Your task to perform on an android device: Clear all items from cart on walmart.com. Image 0: 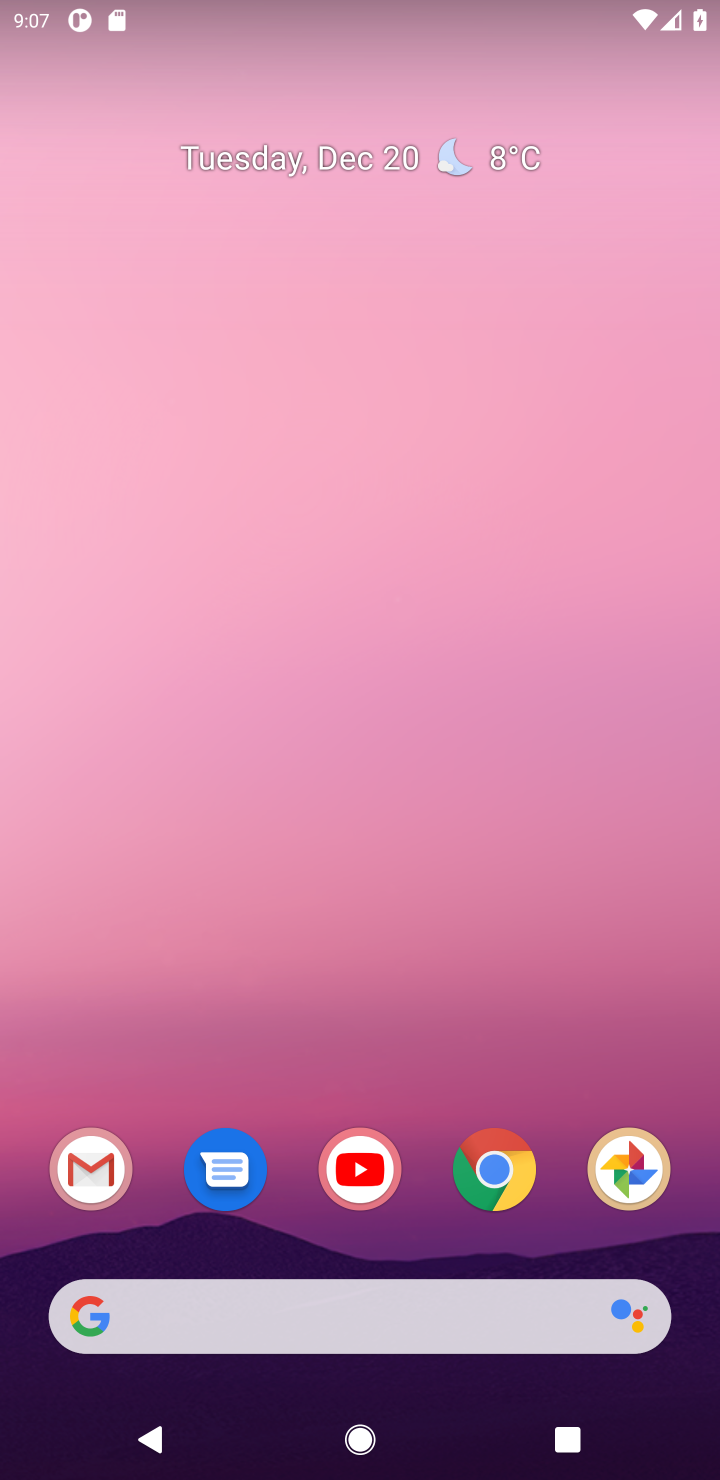
Step 0: click (488, 1139)
Your task to perform on an android device: Clear all items from cart on walmart.com. Image 1: 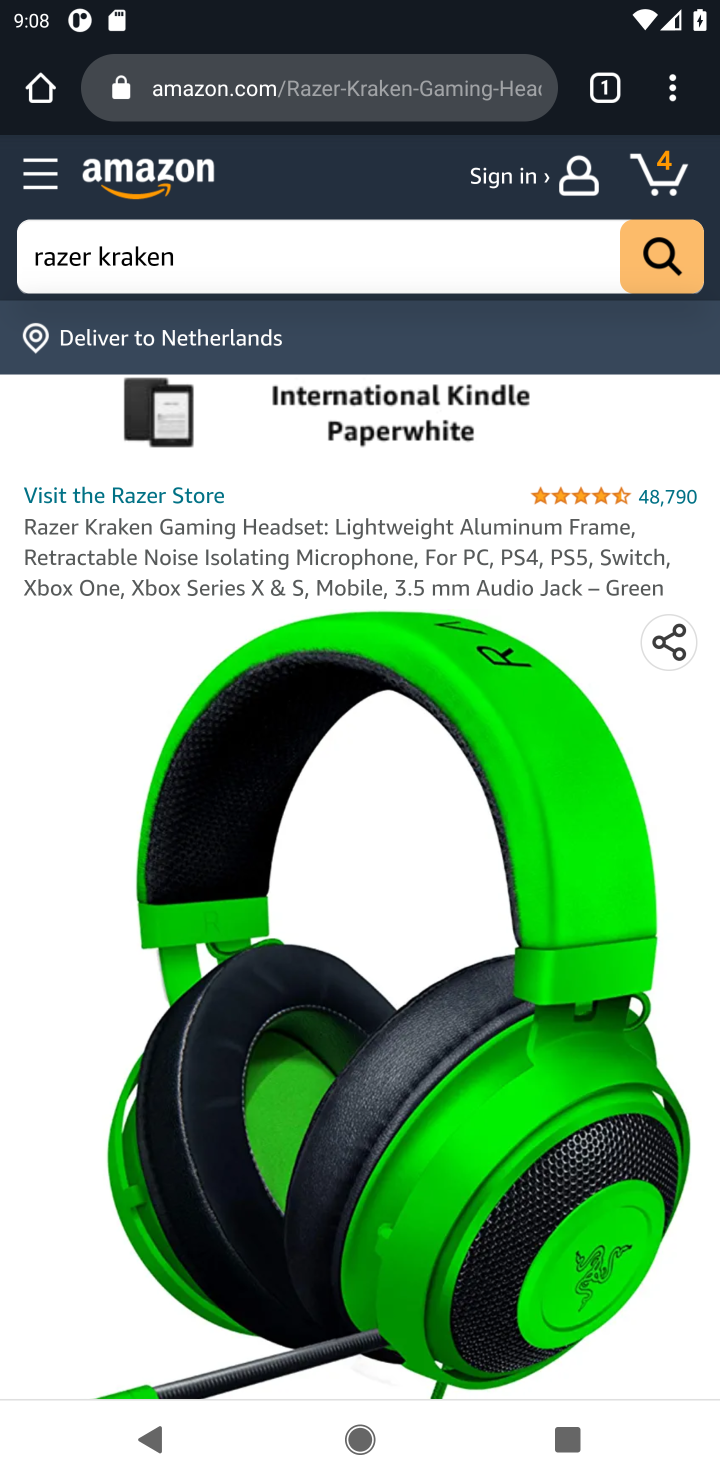
Step 1: click (296, 74)
Your task to perform on an android device: Clear all items from cart on walmart.com. Image 2: 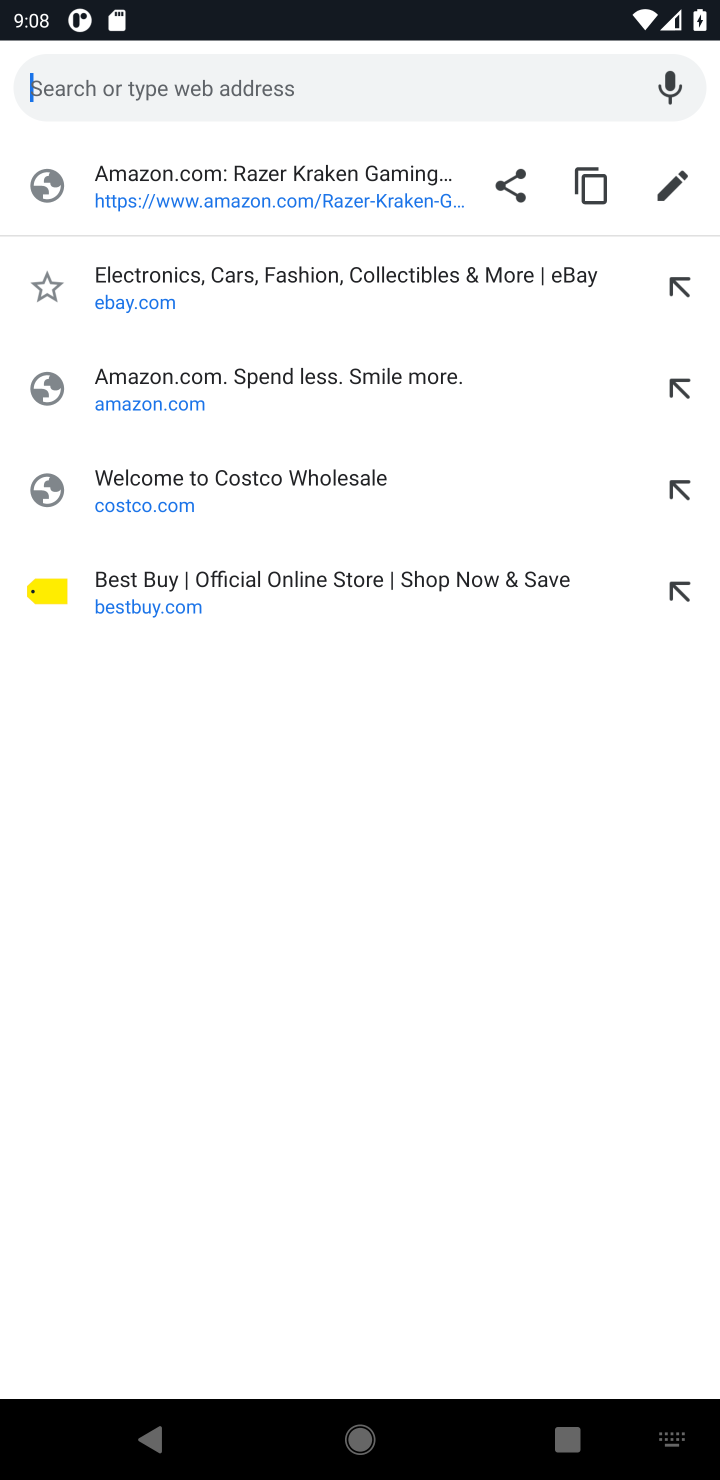
Step 2: type "walmart"
Your task to perform on an android device: Clear all items from cart on walmart.com. Image 3: 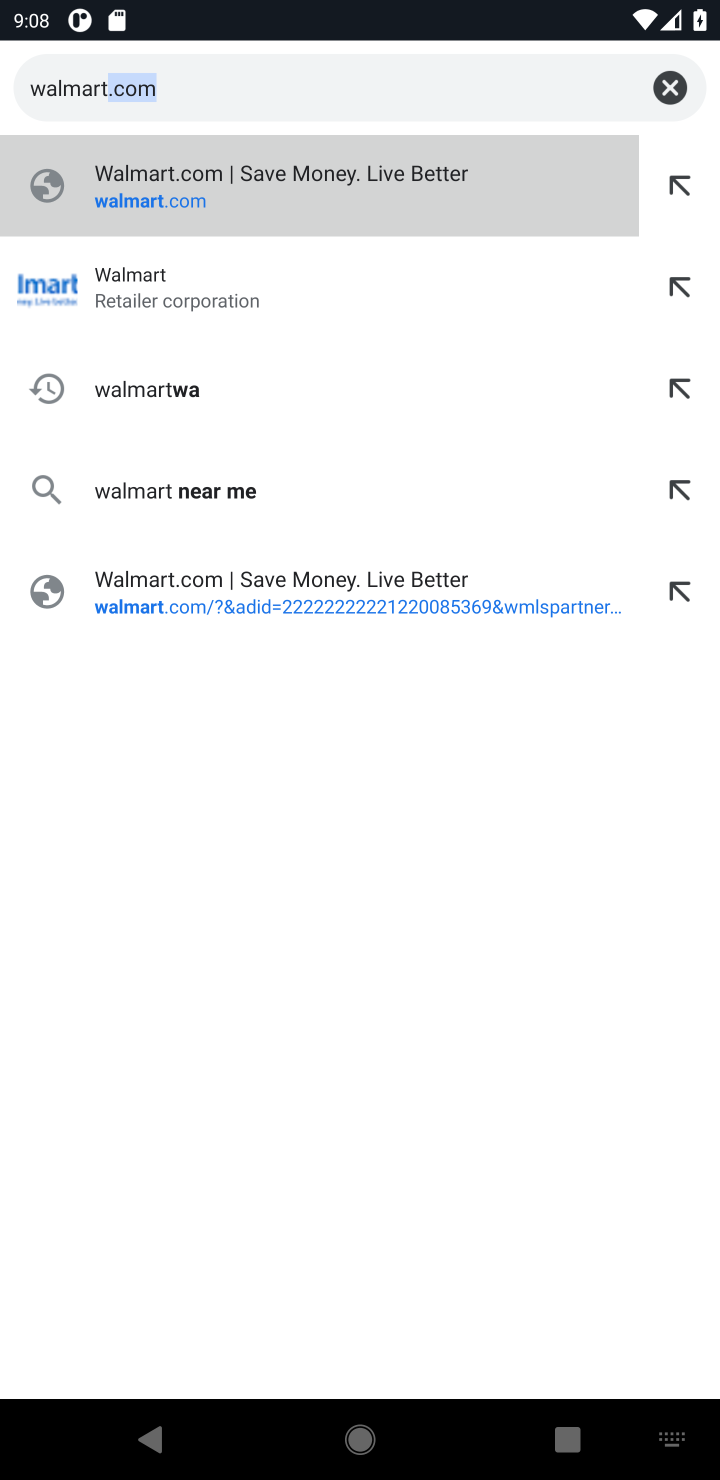
Step 3: click (221, 210)
Your task to perform on an android device: Clear all items from cart on walmart.com. Image 4: 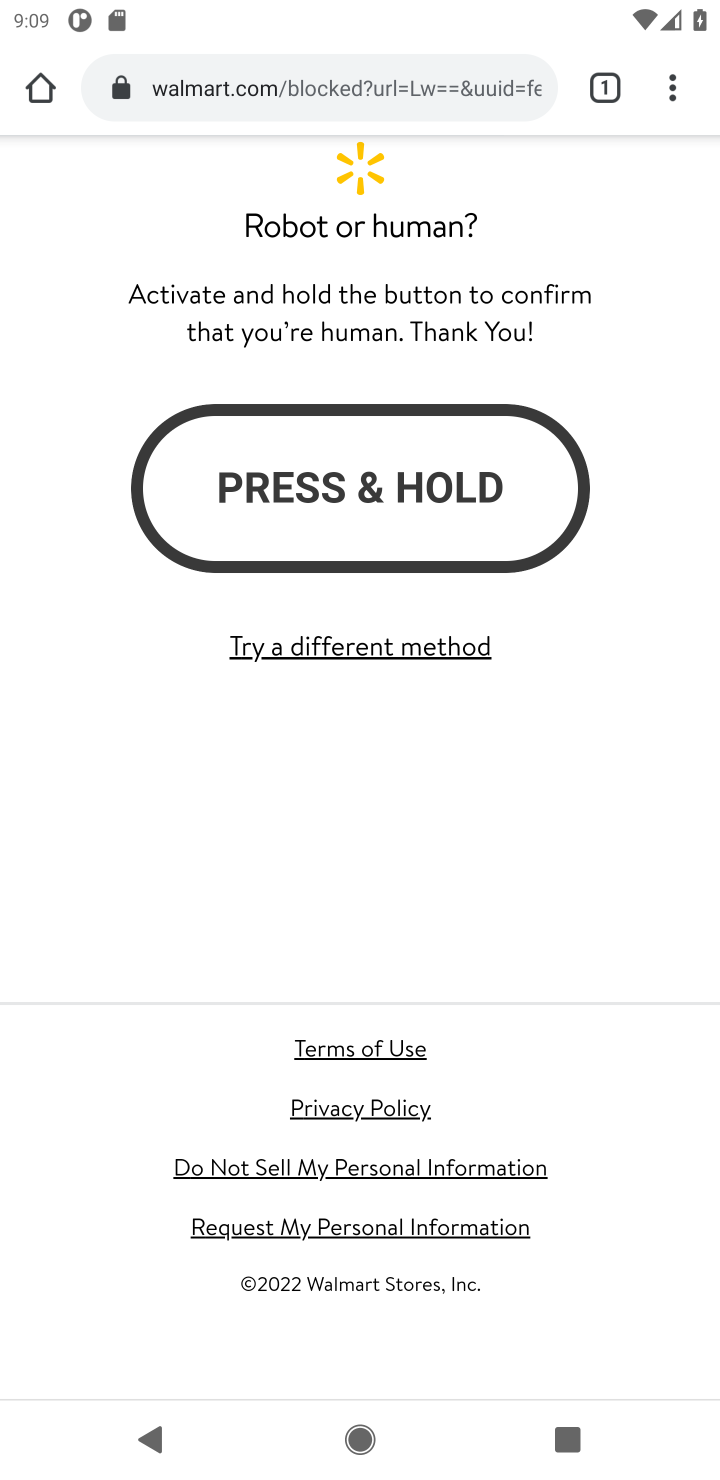
Step 4: click (415, 659)
Your task to perform on an android device: Clear all items from cart on walmart.com. Image 5: 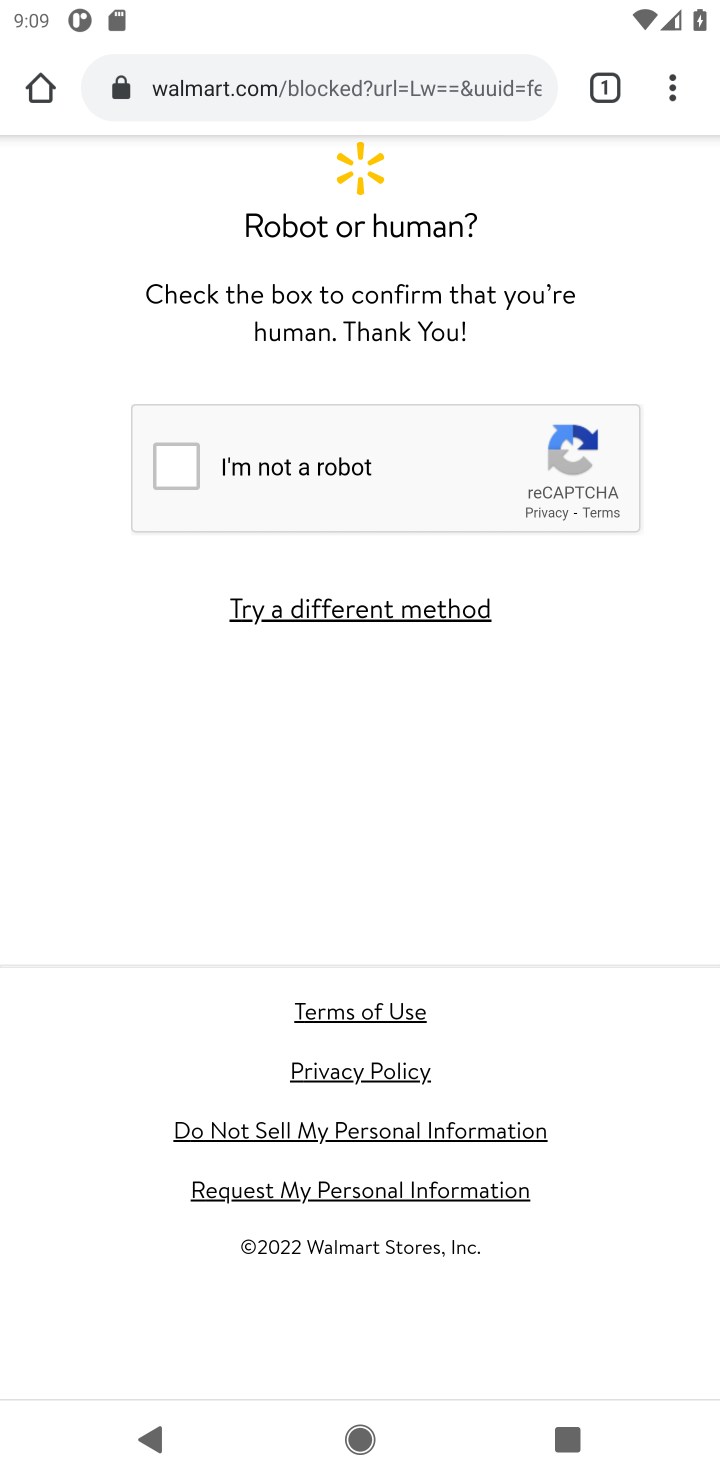
Step 5: click (185, 452)
Your task to perform on an android device: Clear all items from cart on walmart.com. Image 6: 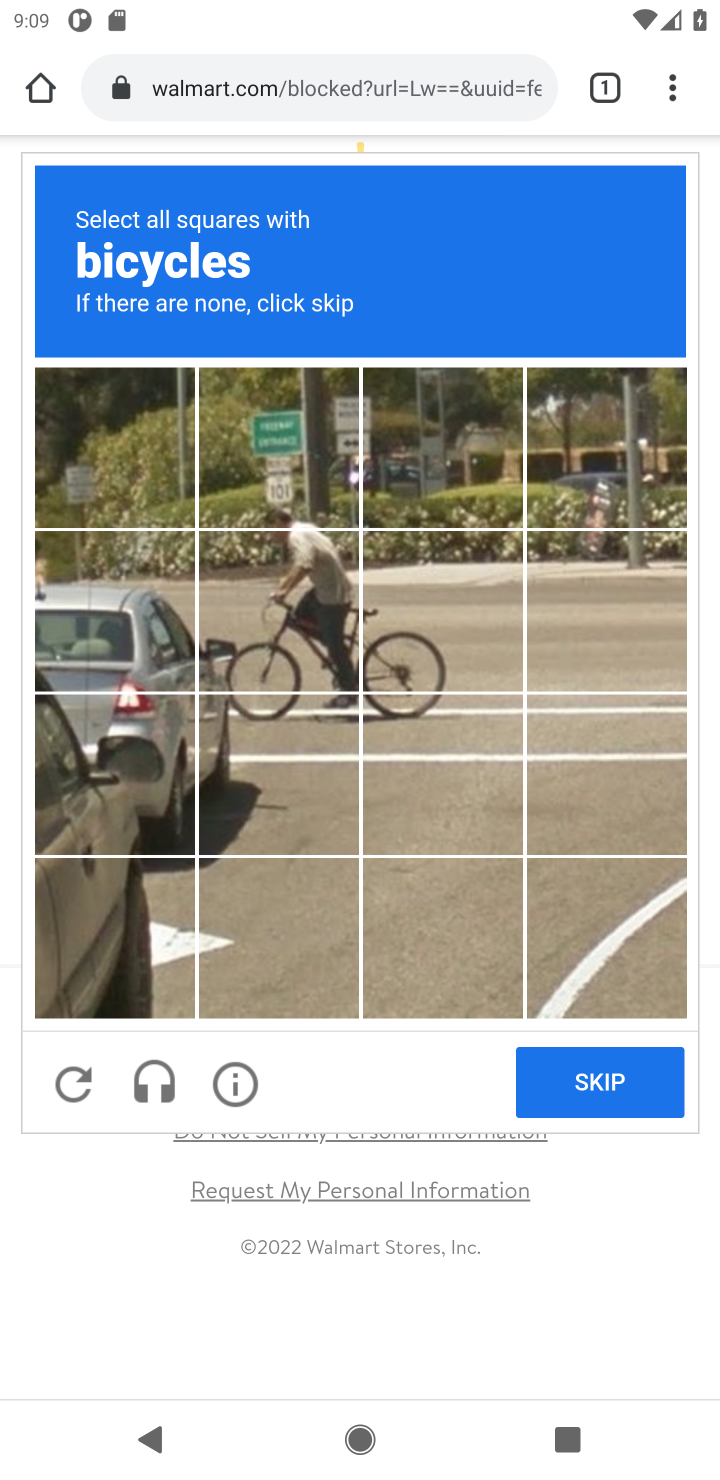
Step 6: click (590, 1076)
Your task to perform on an android device: Clear all items from cart on walmart.com. Image 7: 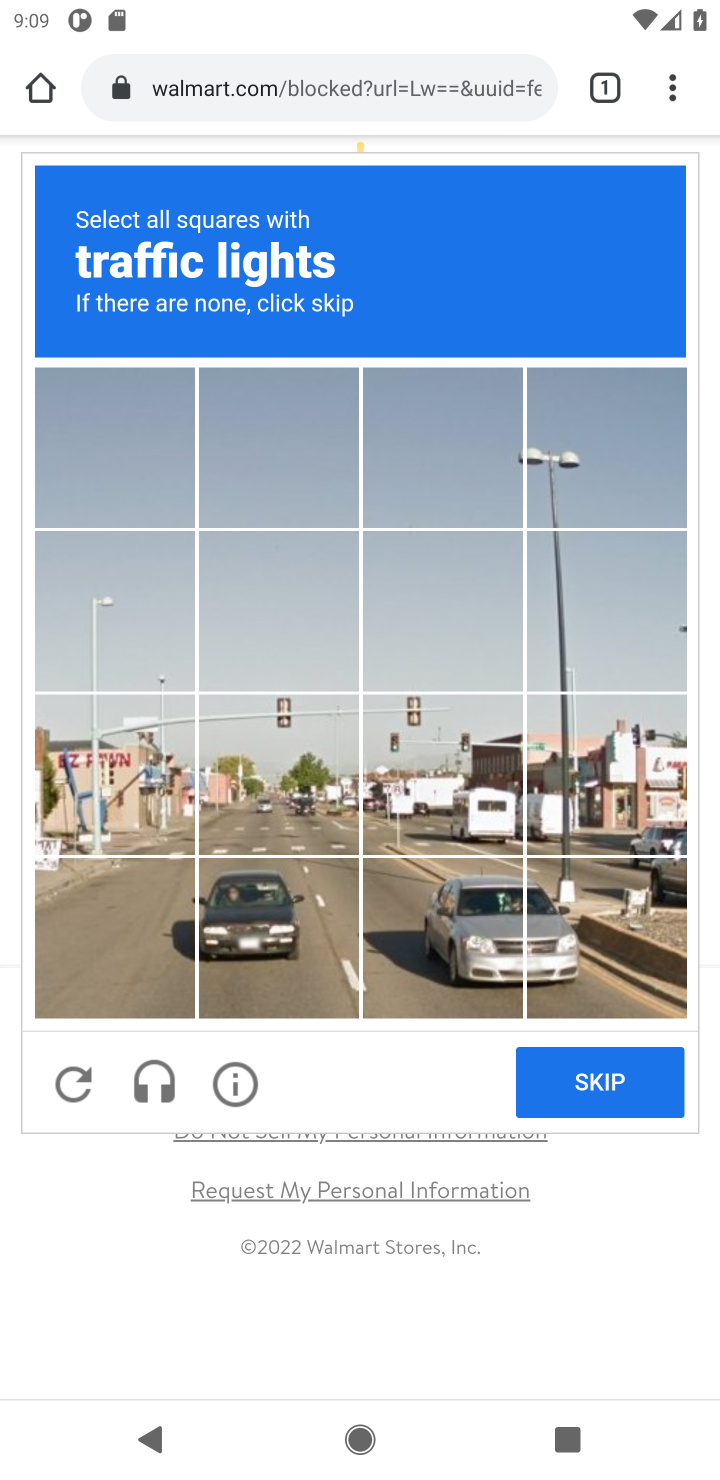
Step 7: click (590, 1076)
Your task to perform on an android device: Clear all items from cart on walmart.com. Image 8: 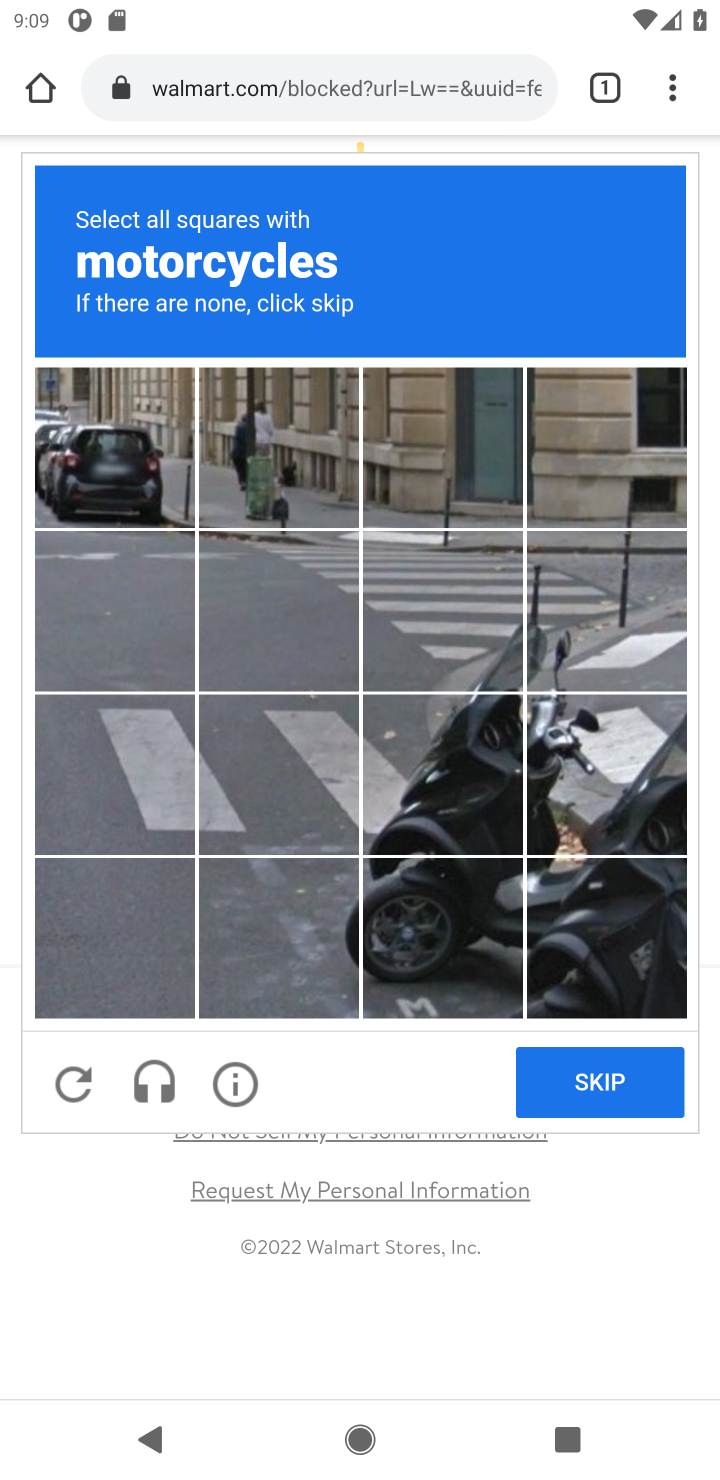
Step 8: click (590, 1076)
Your task to perform on an android device: Clear all items from cart on walmart.com. Image 9: 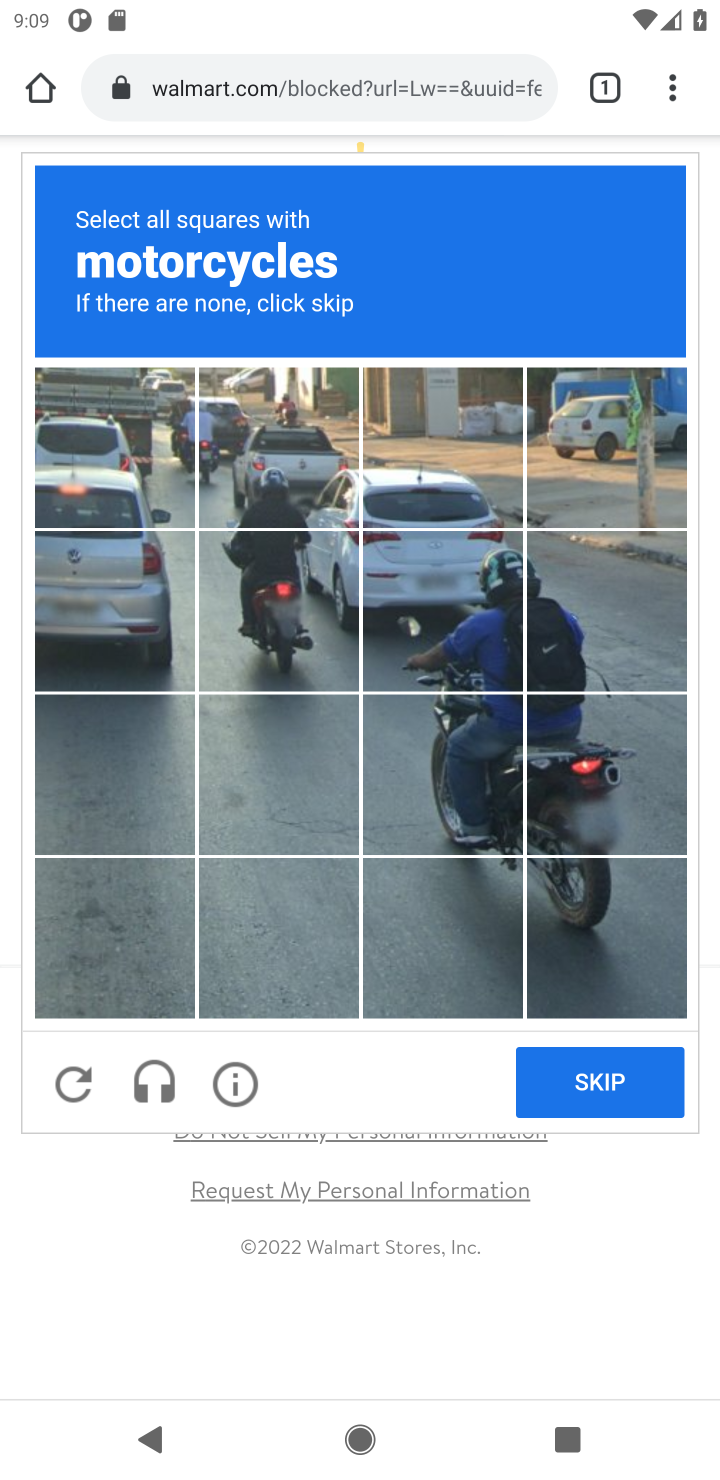
Step 9: click (590, 1076)
Your task to perform on an android device: Clear all items from cart on walmart.com. Image 10: 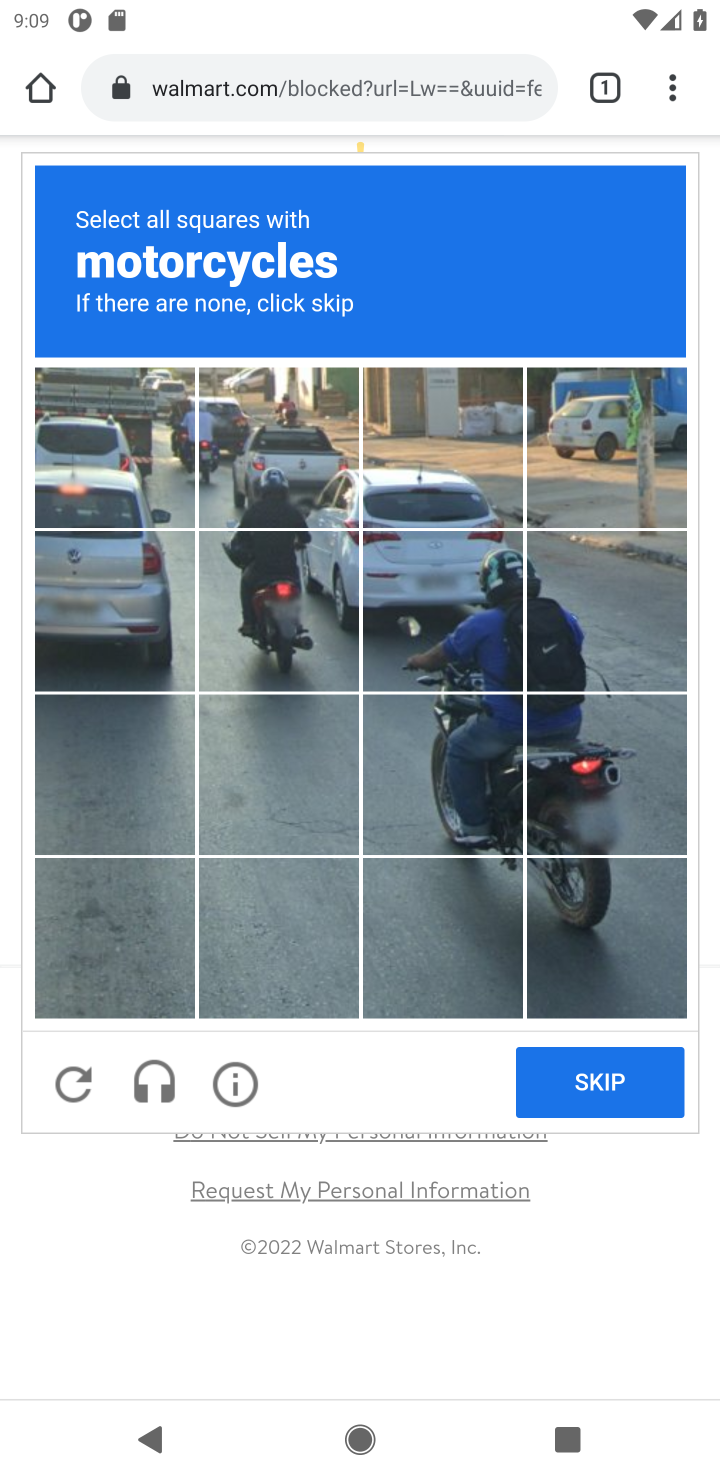
Step 10: click (590, 1076)
Your task to perform on an android device: Clear all items from cart on walmart.com. Image 11: 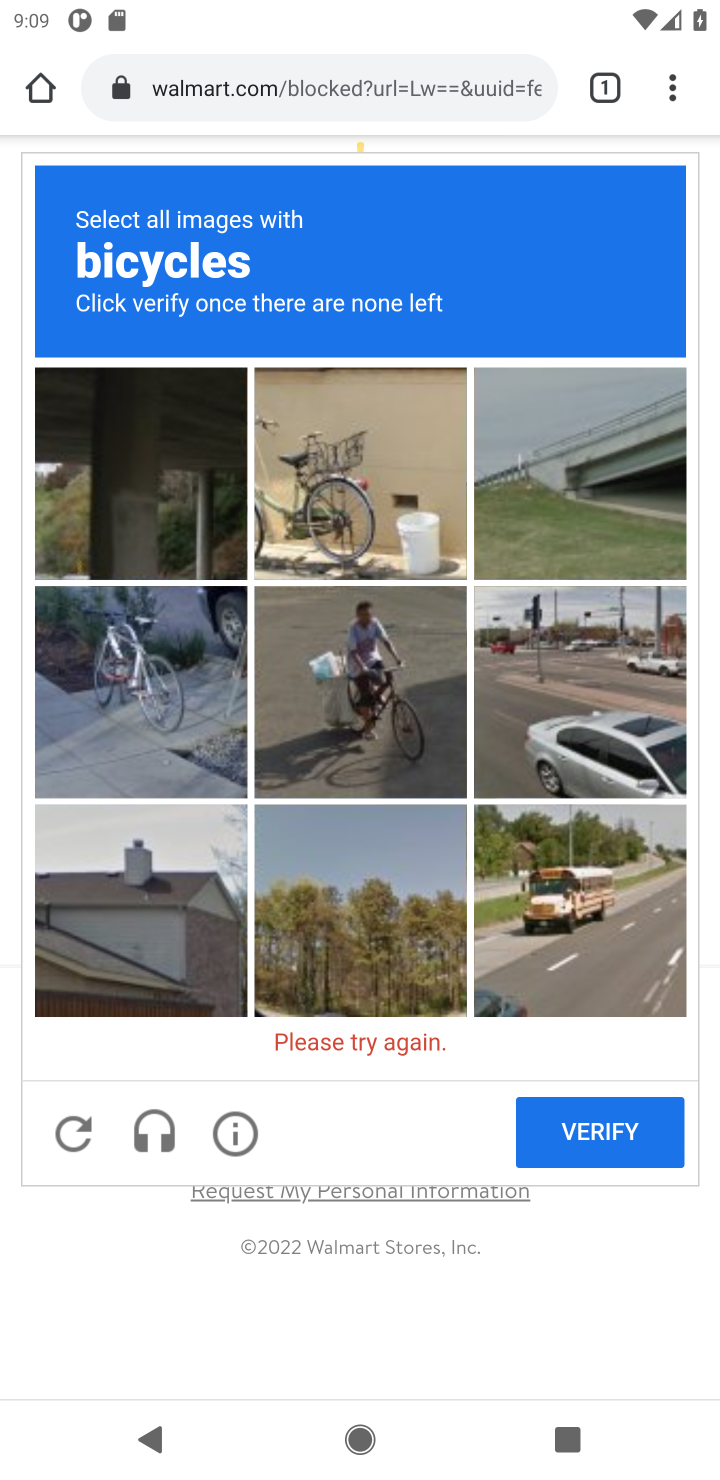
Step 11: click (590, 1076)
Your task to perform on an android device: Clear all items from cart on walmart.com. Image 12: 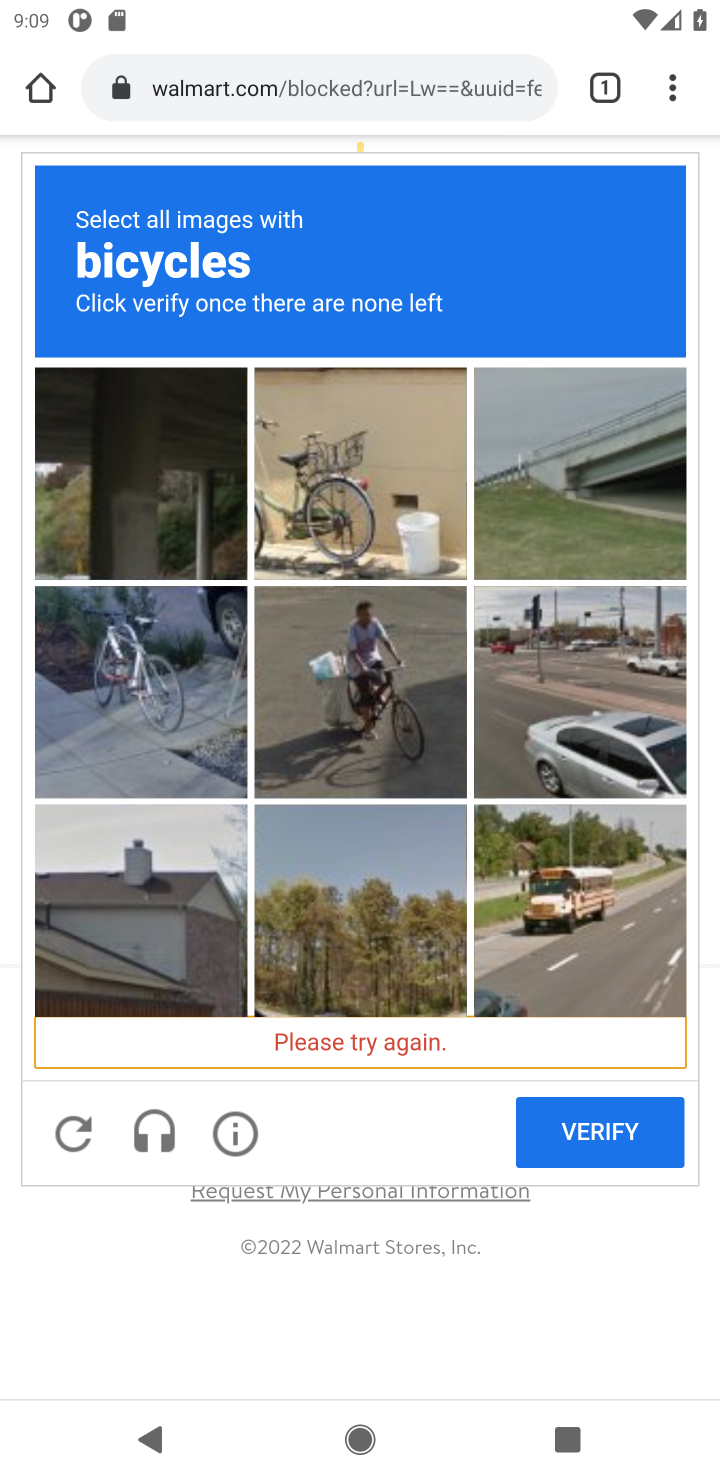
Step 12: click (333, 664)
Your task to perform on an android device: Clear all items from cart on walmart.com. Image 13: 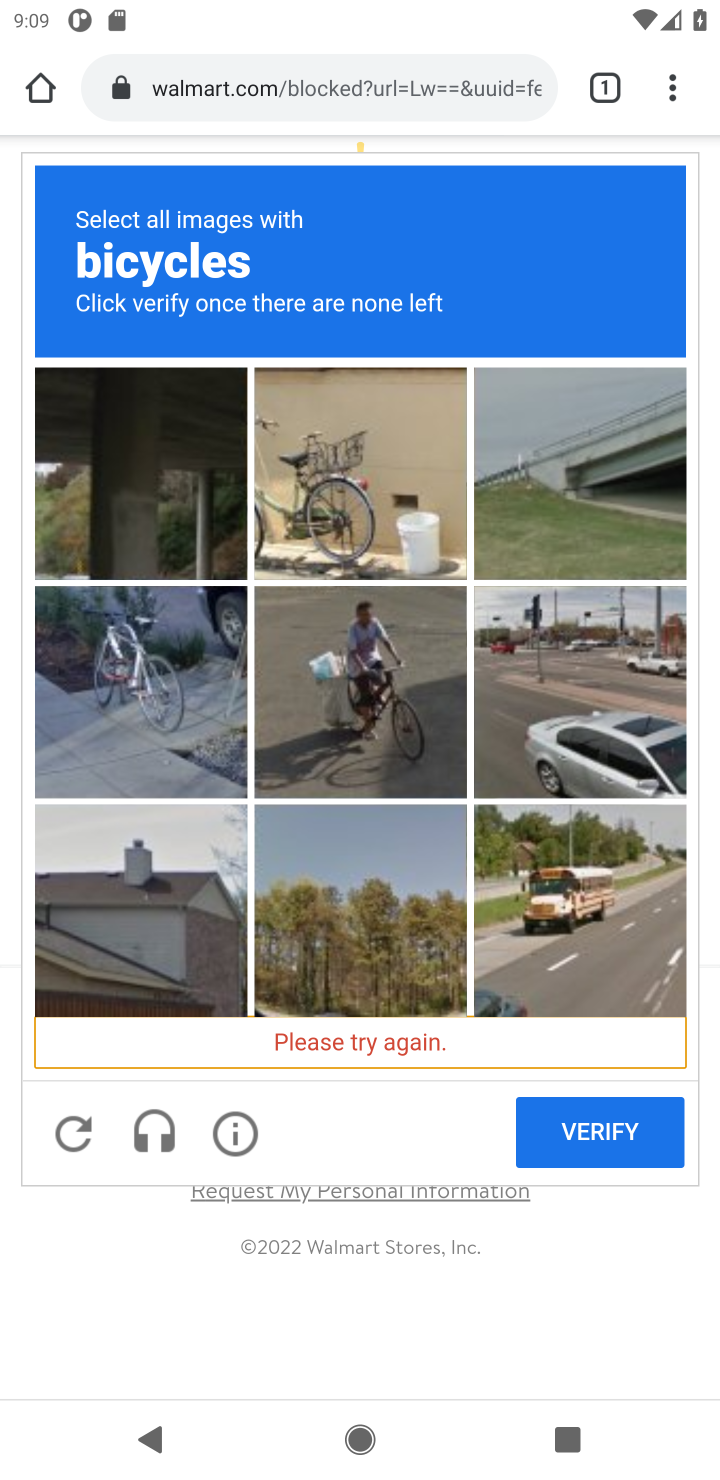
Step 13: click (167, 678)
Your task to perform on an android device: Clear all items from cart on walmart.com. Image 14: 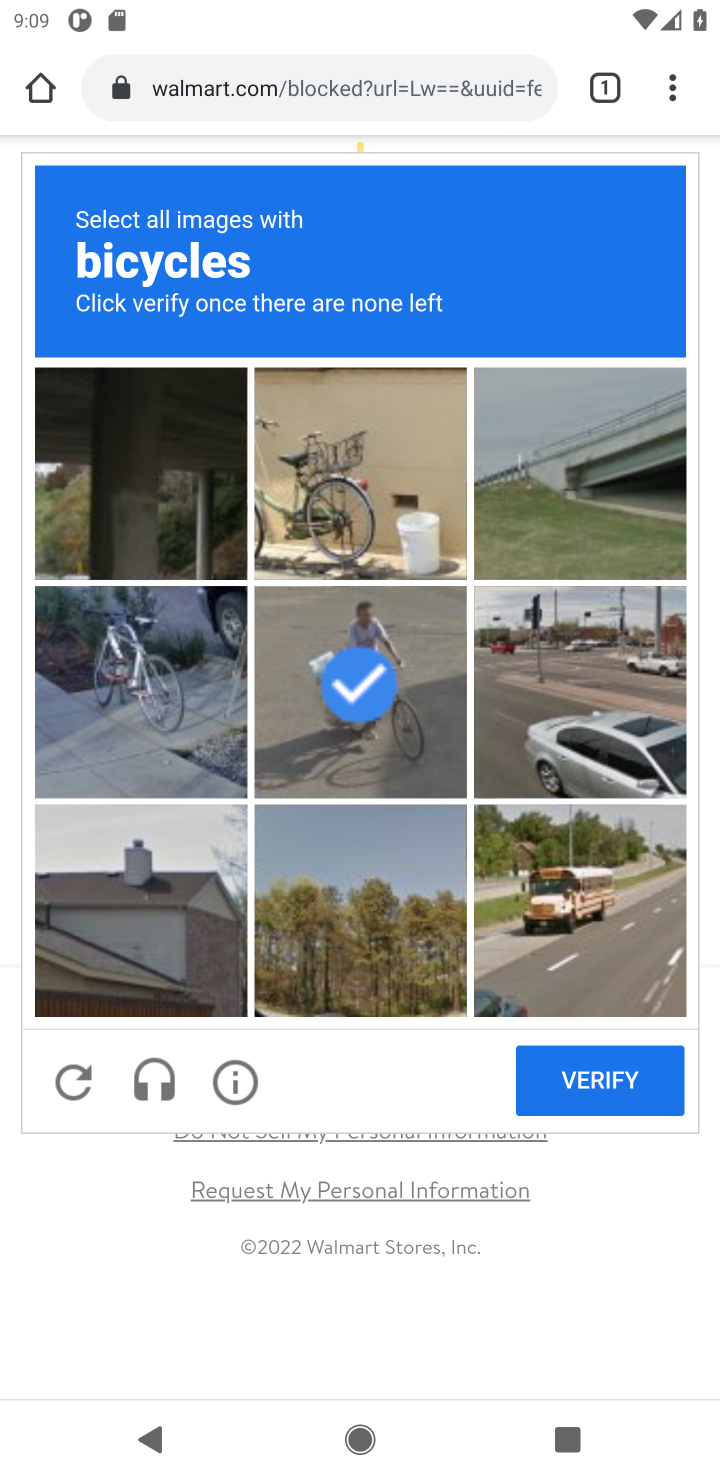
Step 14: click (371, 519)
Your task to perform on an android device: Clear all items from cart on walmart.com. Image 15: 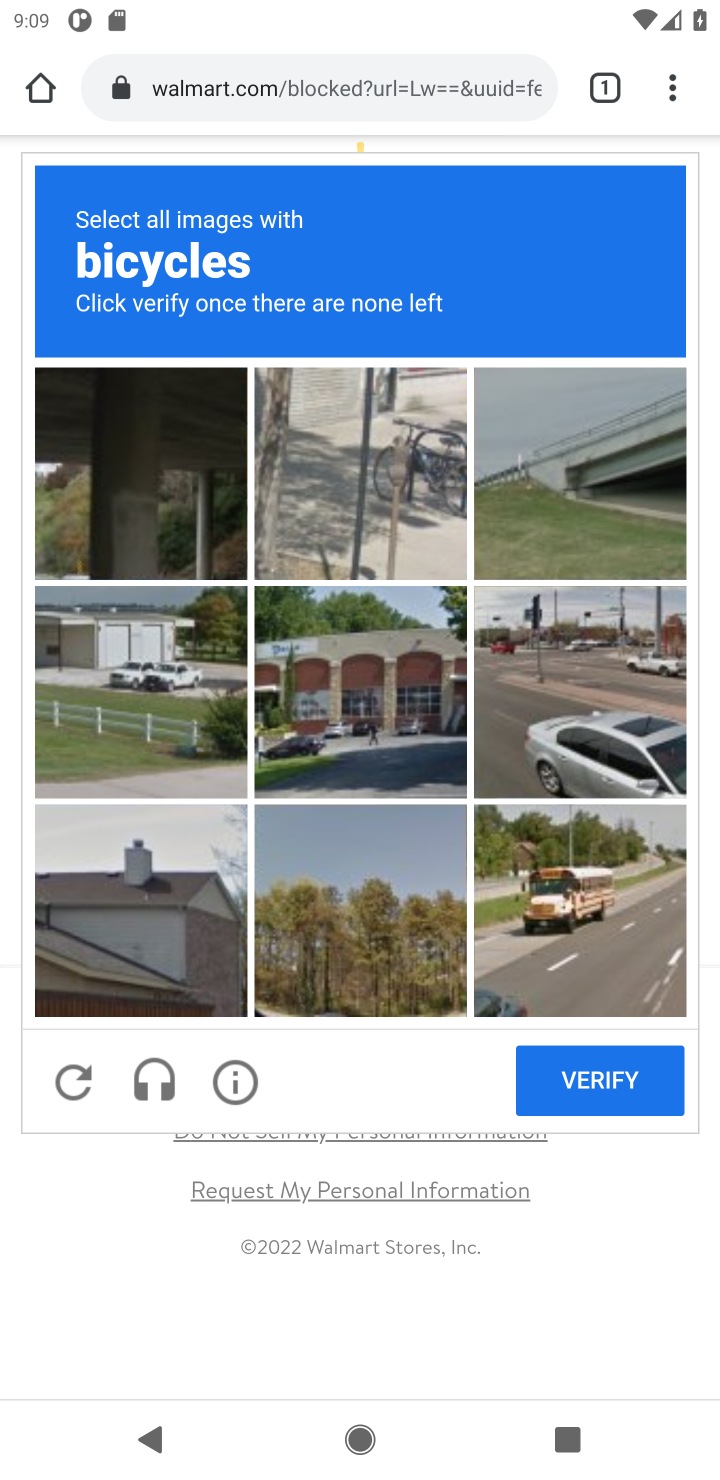
Step 15: click (415, 548)
Your task to perform on an android device: Clear all items from cart on walmart.com. Image 16: 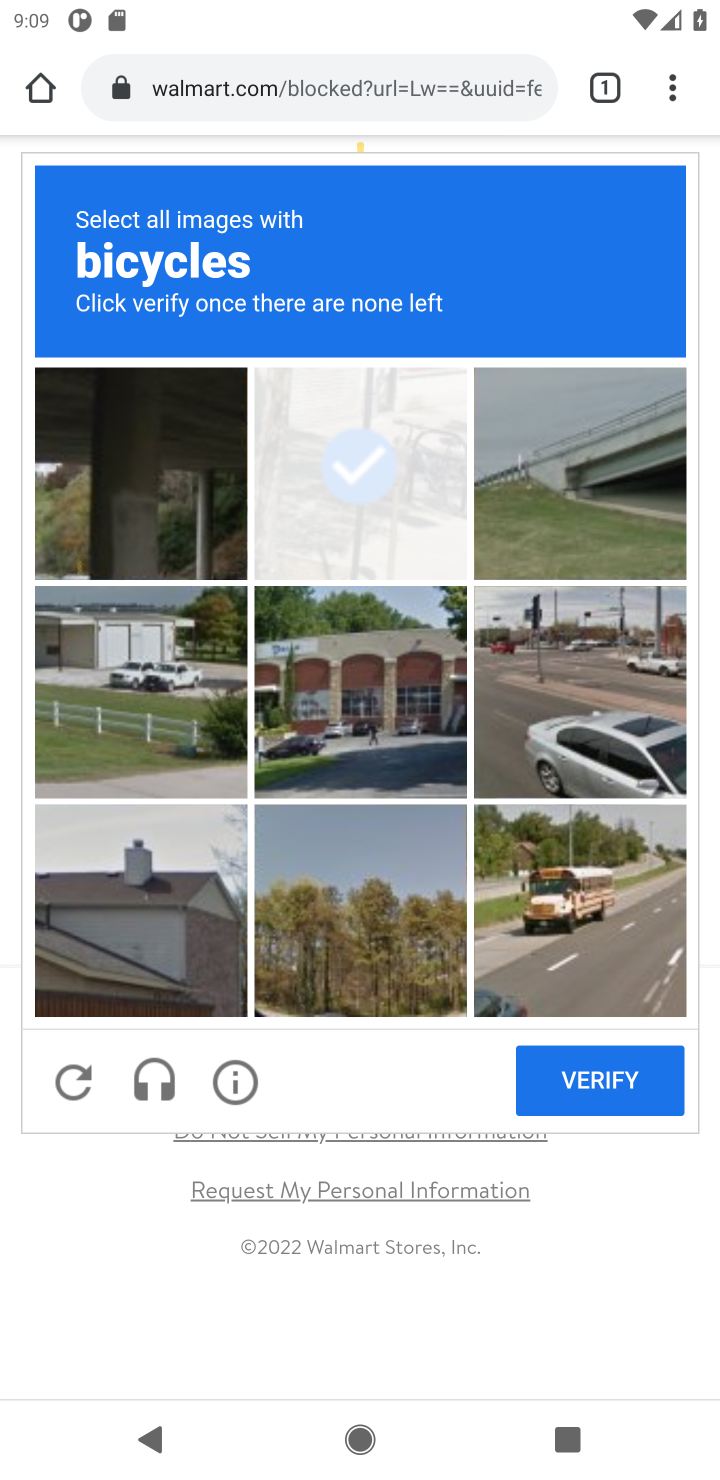
Step 16: click (616, 1102)
Your task to perform on an android device: Clear all items from cart on walmart.com. Image 17: 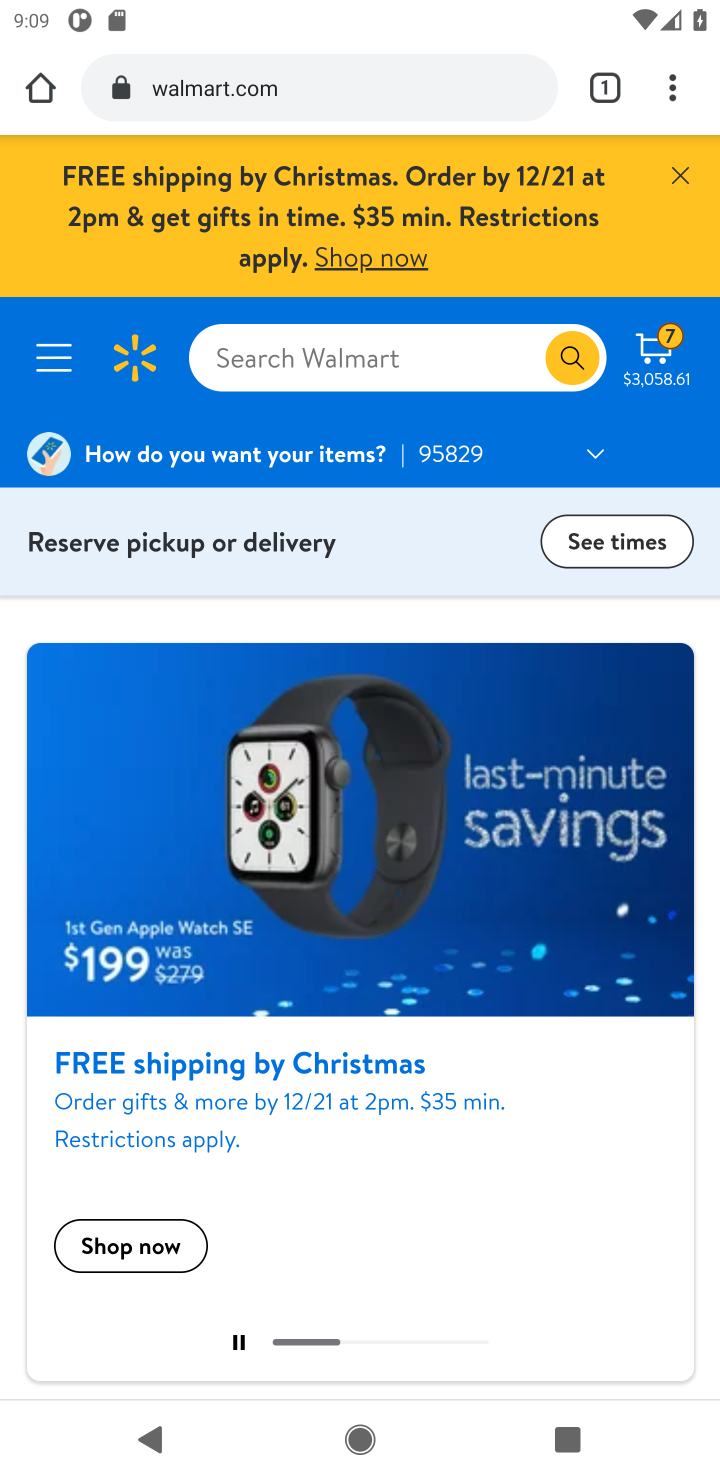
Step 17: click (297, 350)
Your task to perform on an android device: Clear all items from cart on walmart.com. Image 18: 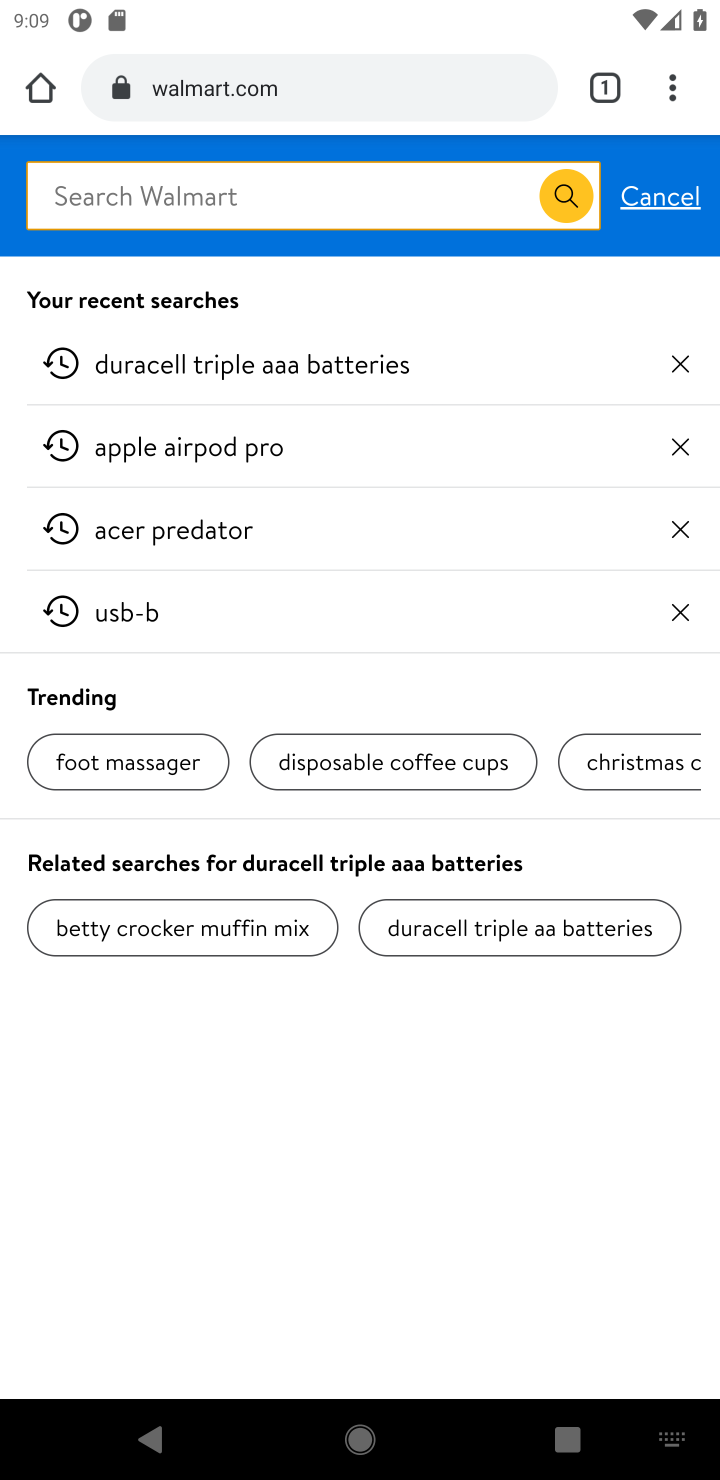
Step 18: click (645, 196)
Your task to perform on an android device: Clear all items from cart on walmart.com. Image 19: 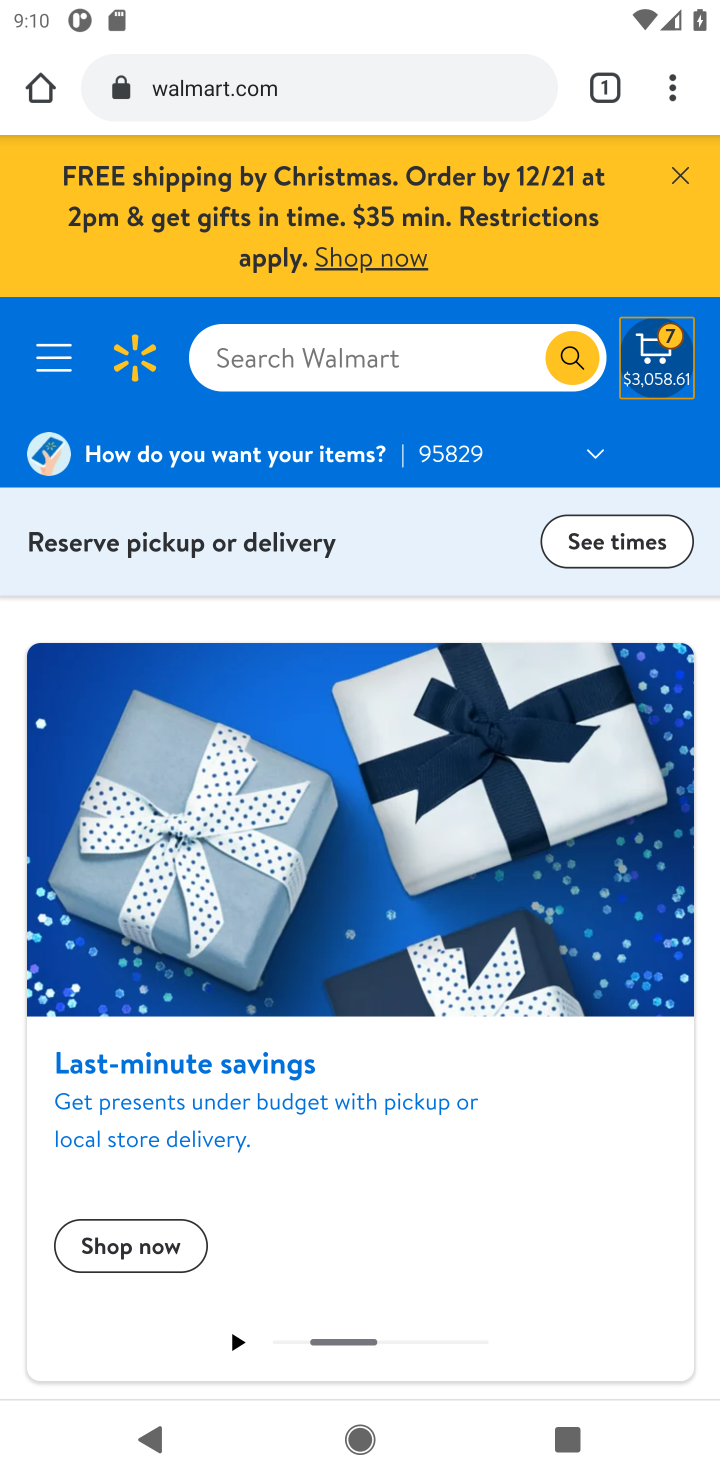
Step 19: click (656, 343)
Your task to perform on an android device: Clear all items from cart on walmart.com. Image 20: 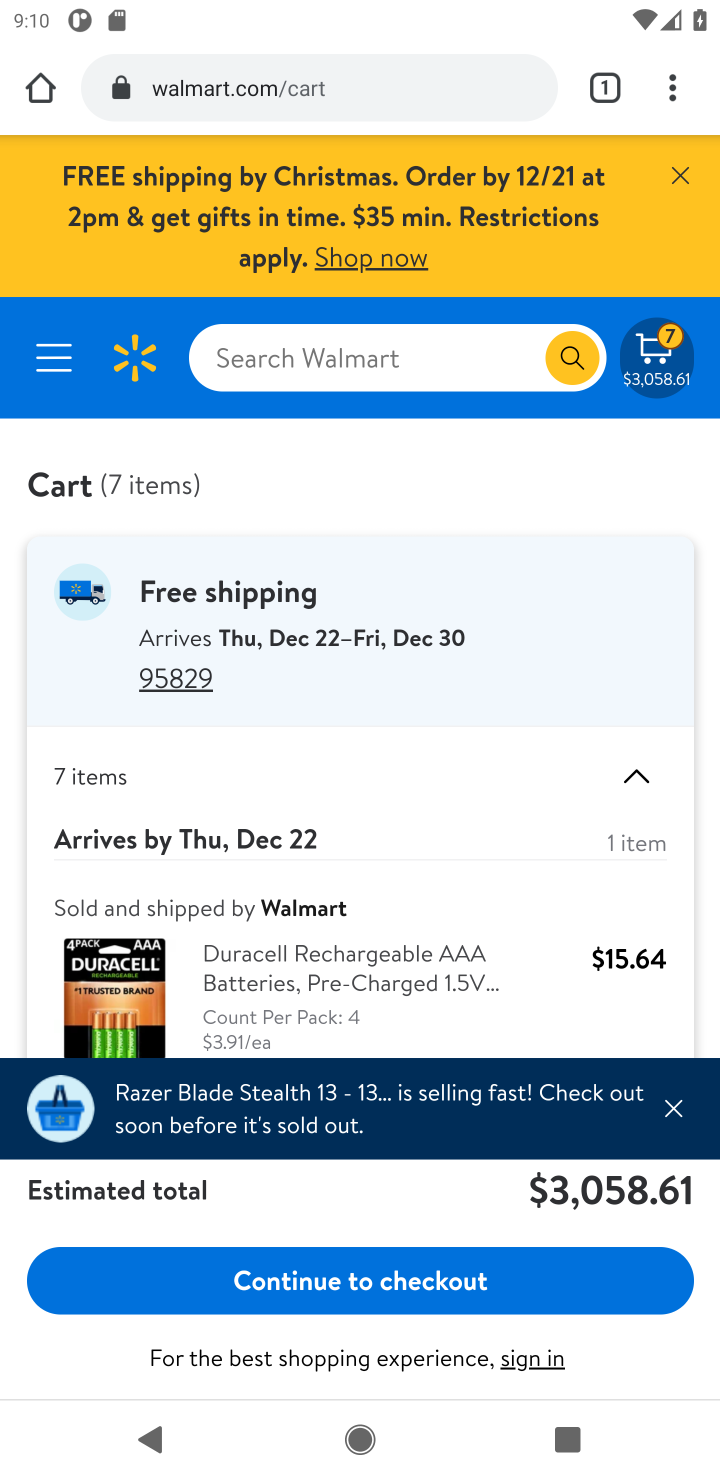
Step 20: click (678, 1106)
Your task to perform on an android device: Clear all items from cart on walmart.com. Image 21: 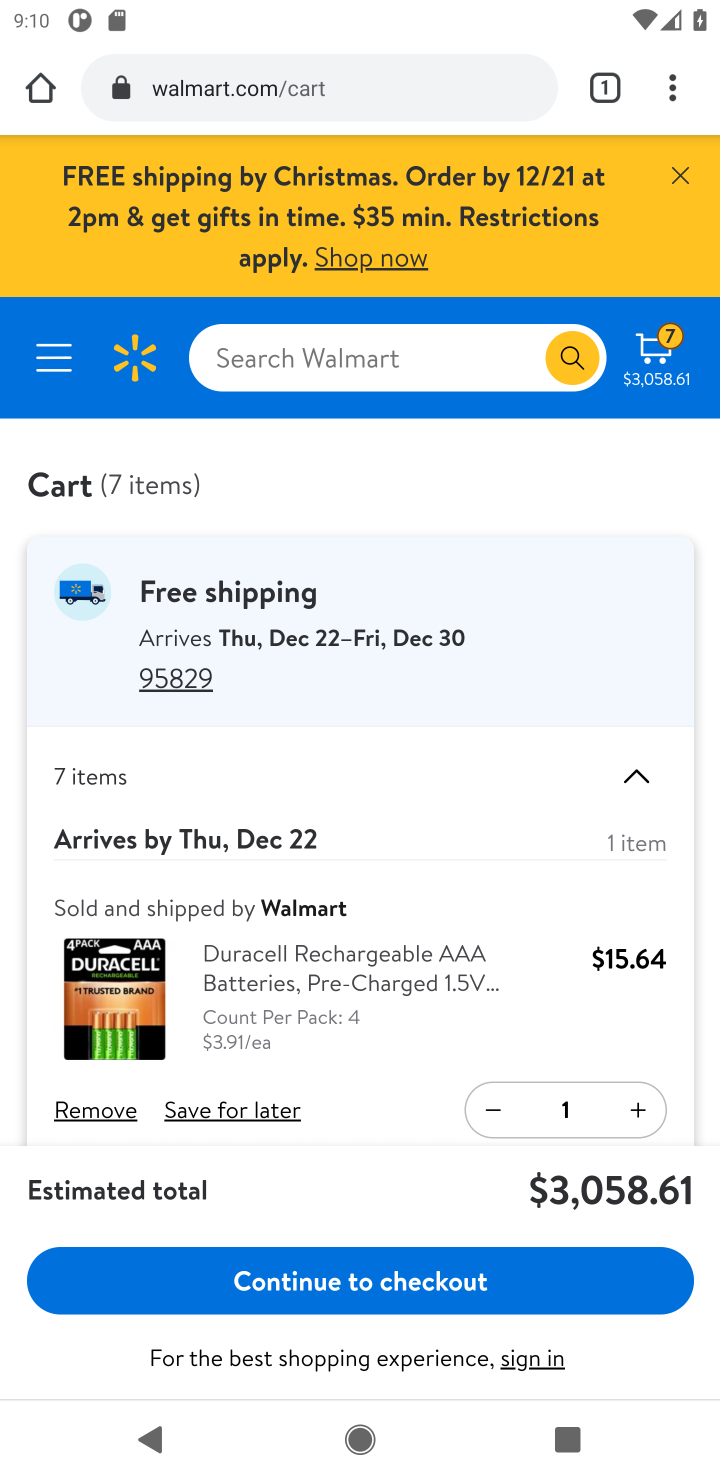
Step 21: click (85, 1111)
Your task to perform on an android device: Clear all items from cart on walmart.com. Image 22: 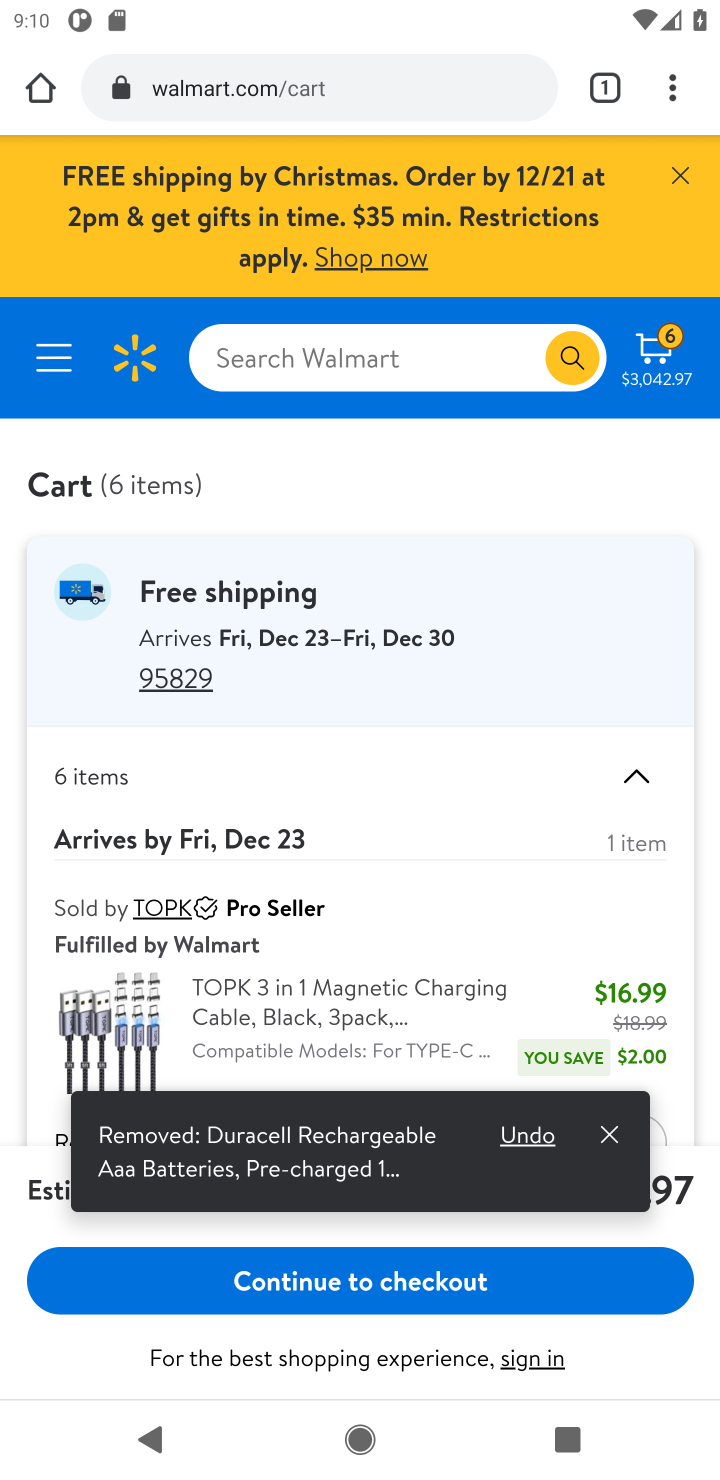
Step 22: click (607, 1142)
Your task to perform on an android device: Clear all items from cart on walmart.com. Image 23: 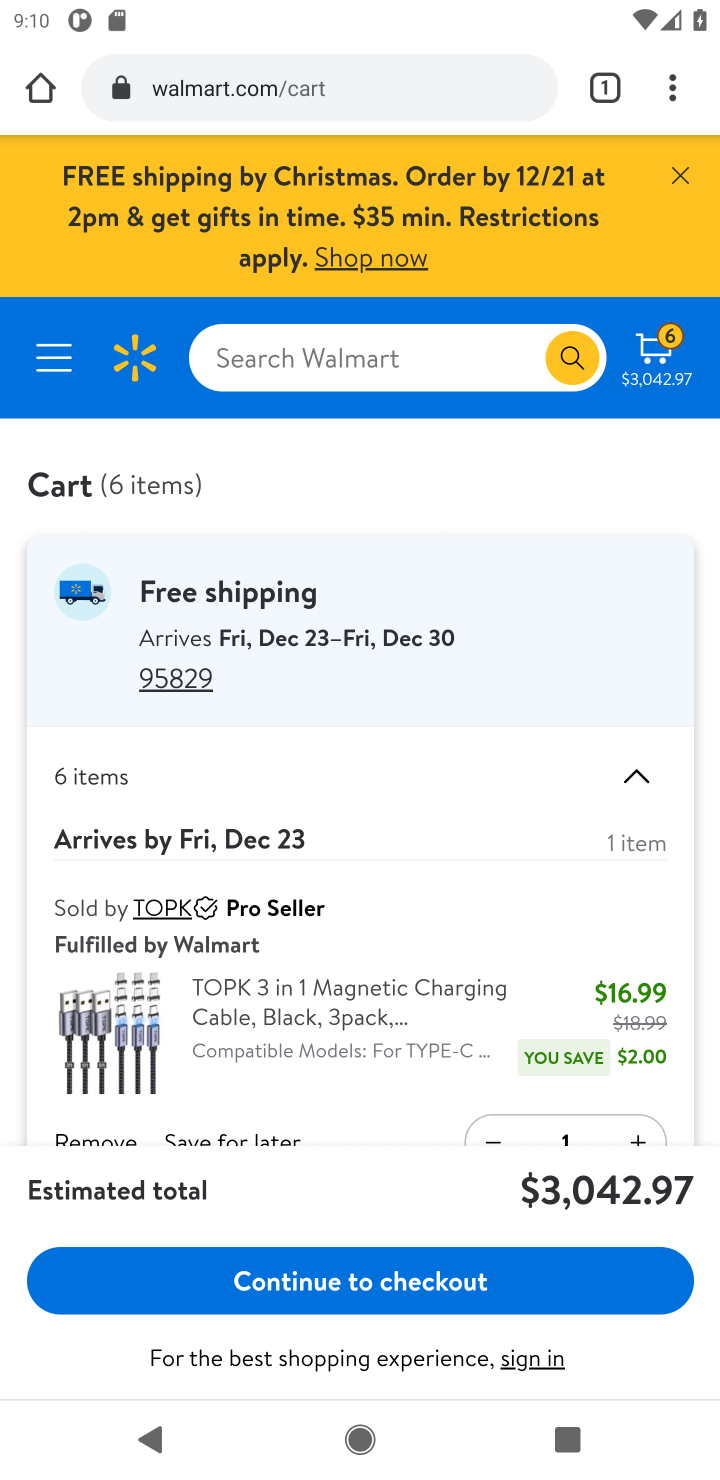
Step 23: click (108, 1136)
Your task to perform on an android device: Clear all items from cart on walmart.com. Image 24: 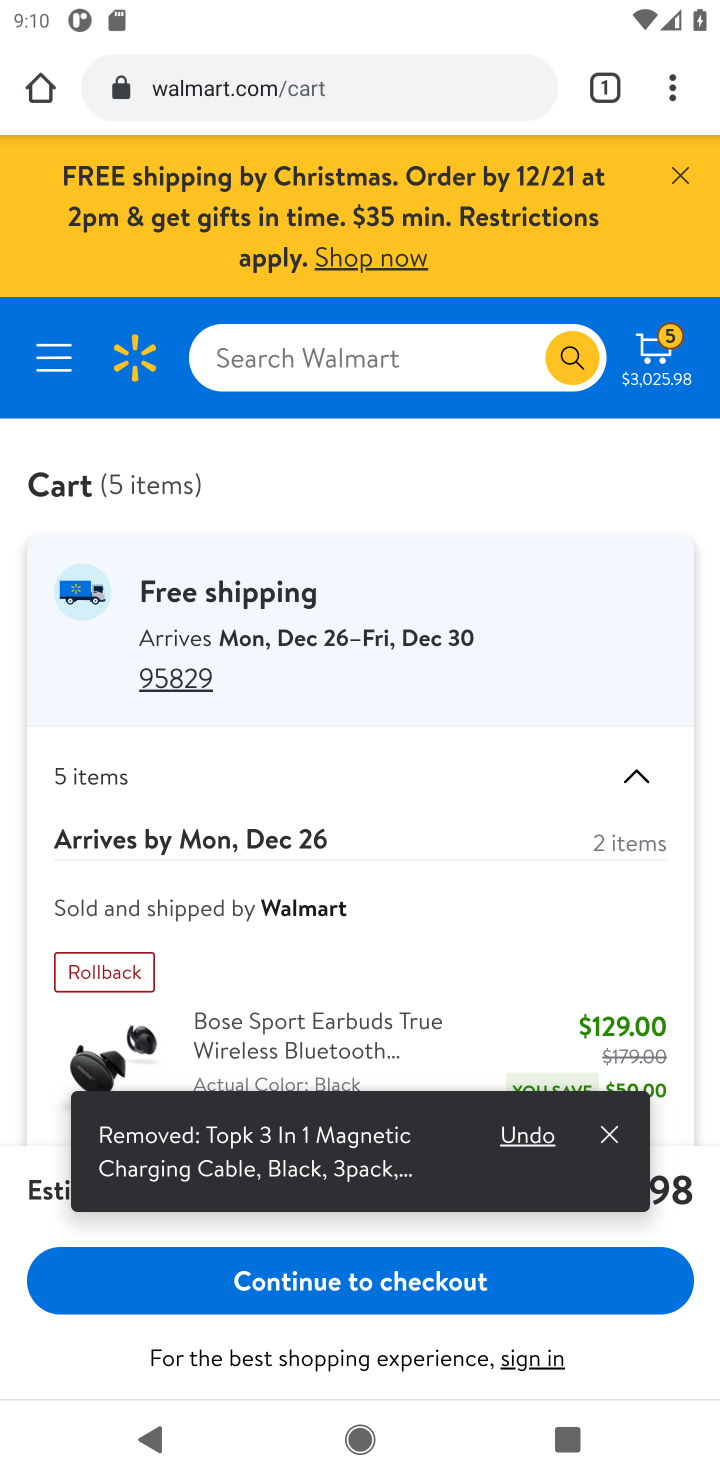
Step 24: click (617, 1123)
Your task to perform on an android device: Clear all items from cart on walmart.com. Image 25: 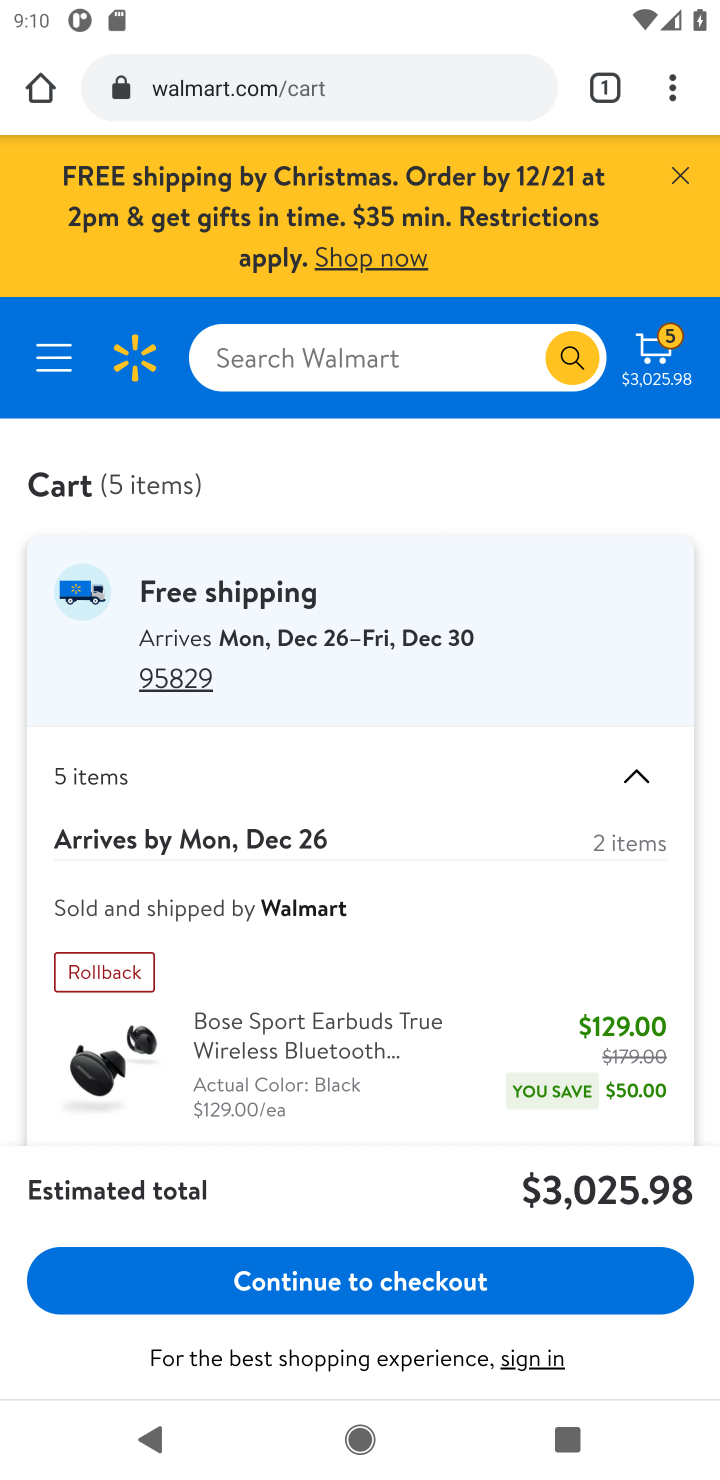
Step 25: drag from (458, 1105) to (471, 710)
Your task to perform on an android device: Clear all items from cart on walmart.com. Image 26: 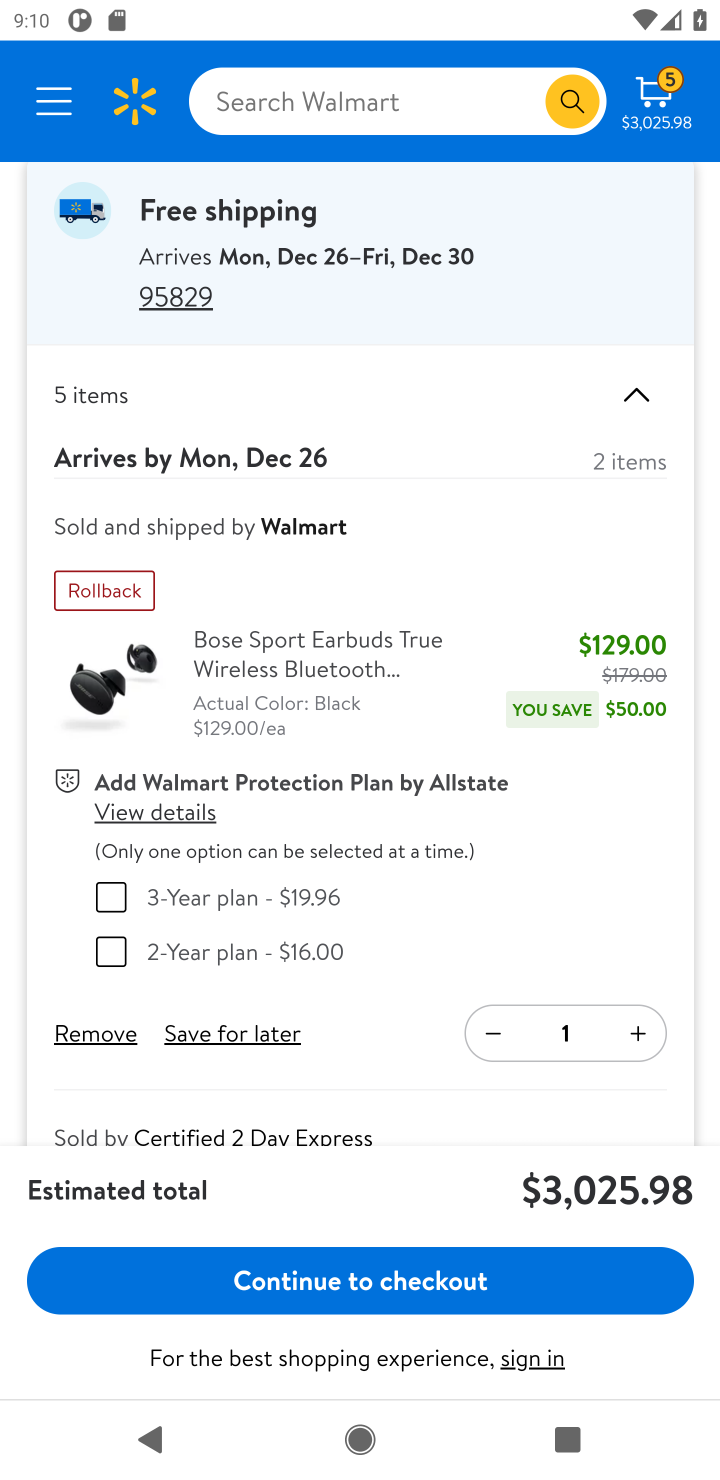
Step 26: click (123, 1036)
Your task to perform on an android device: Clear all items from cart on walmart.com. Image 27: 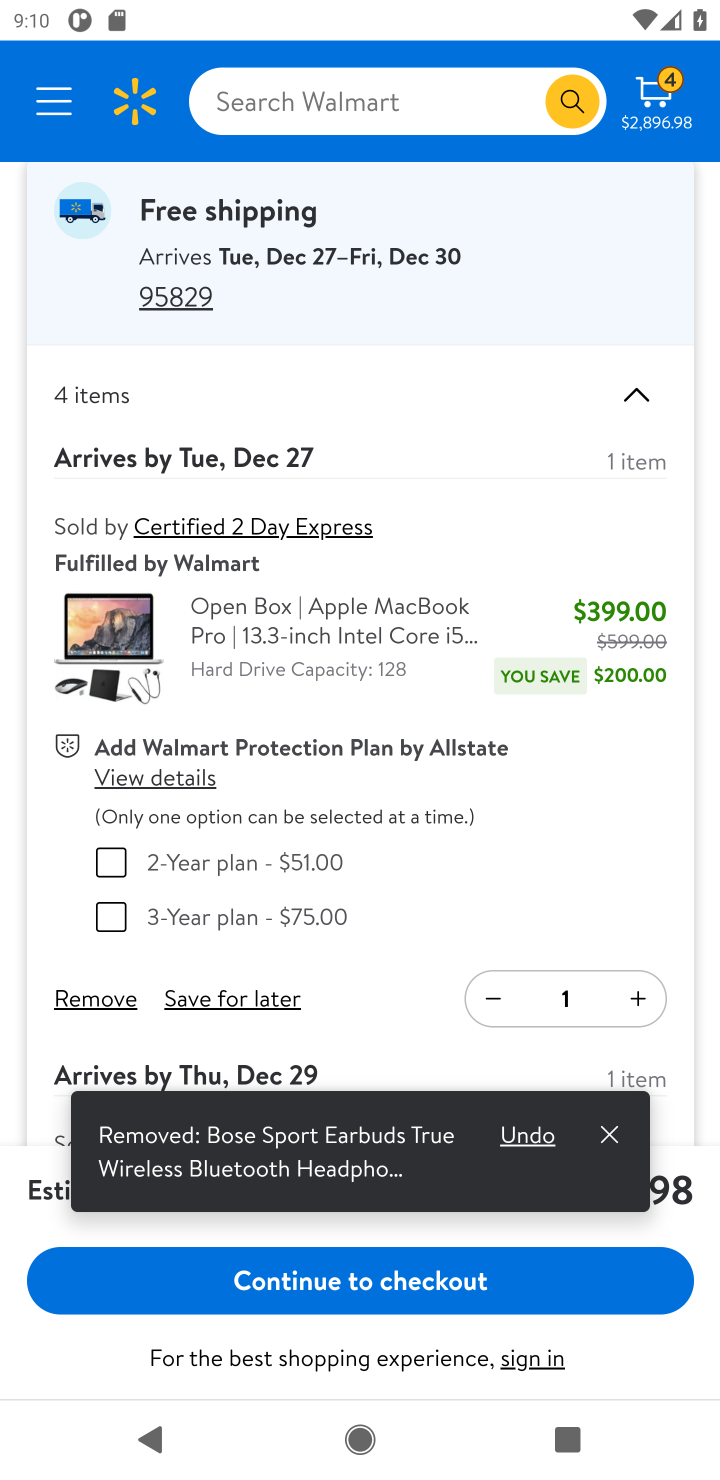
Step 27: click (89, 1018)
Your task to perform on an android device: Clear all items from cart on walmart.com. Image 28: 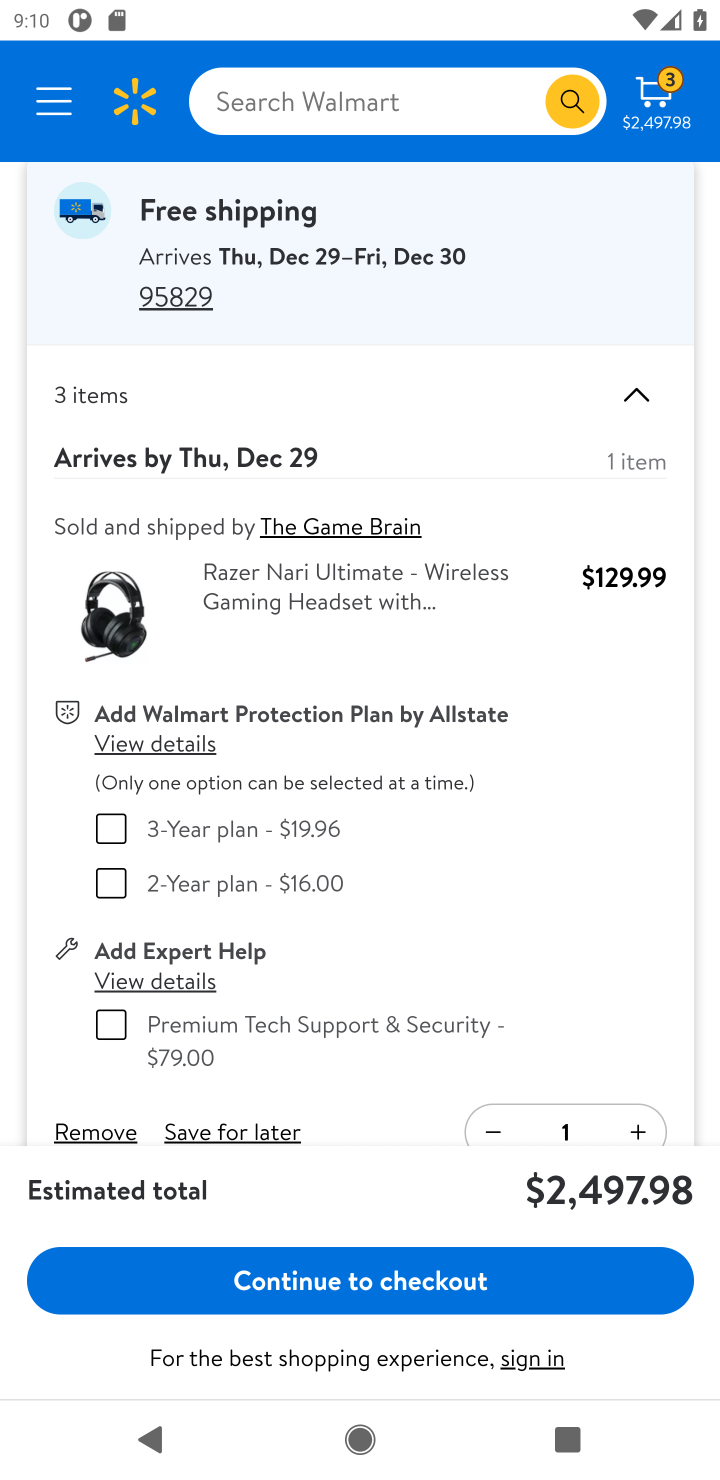
Step 28: click (59, 1143)
Your task to perform on an android device: Clear all items from cart on walmart.com. Image 29: 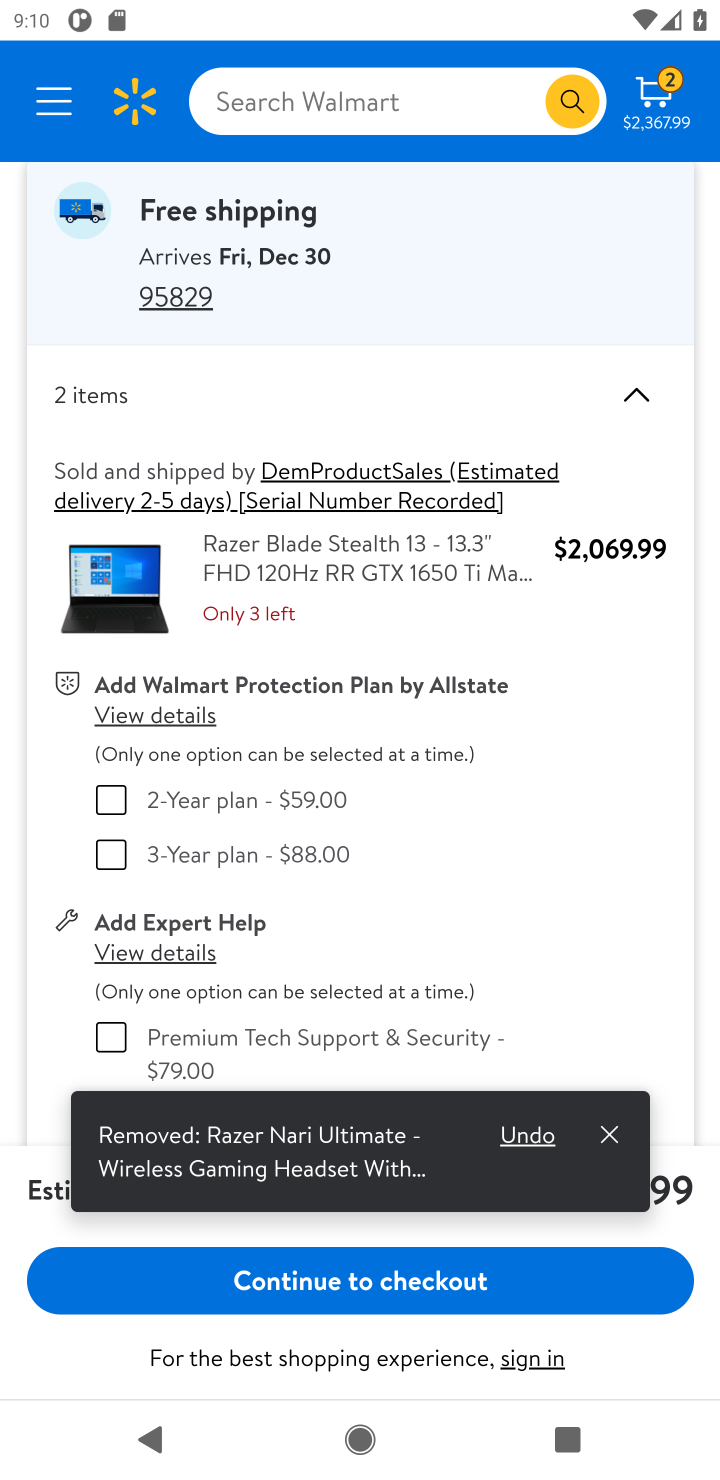
Step 29: click (612, 1148)
Your task to perform on an android device: Clear all items from cart on walmart.com. Image 30: 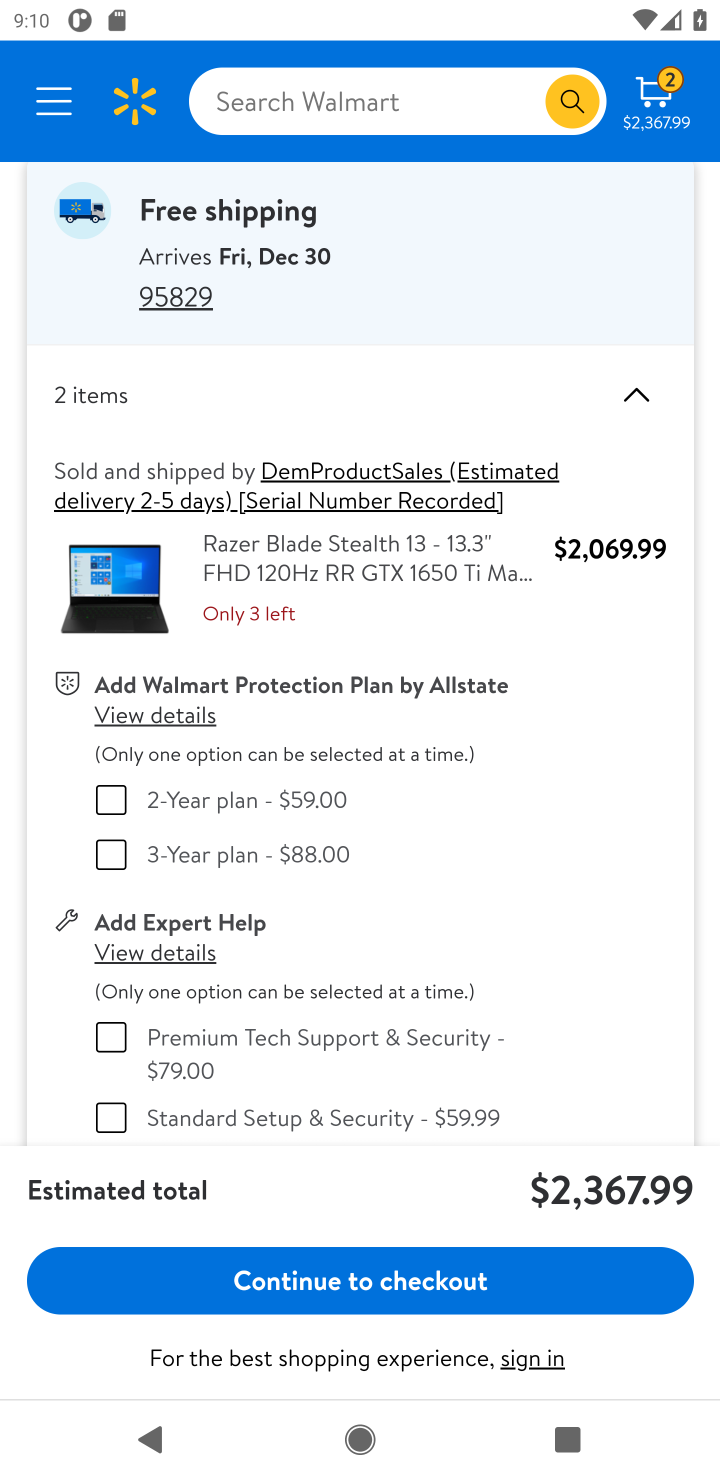
Step 30: drag from (560, 1085) to (547, 443)
Your task to perform on an android device: Clear all items from cart on walmart.com. Image 31: 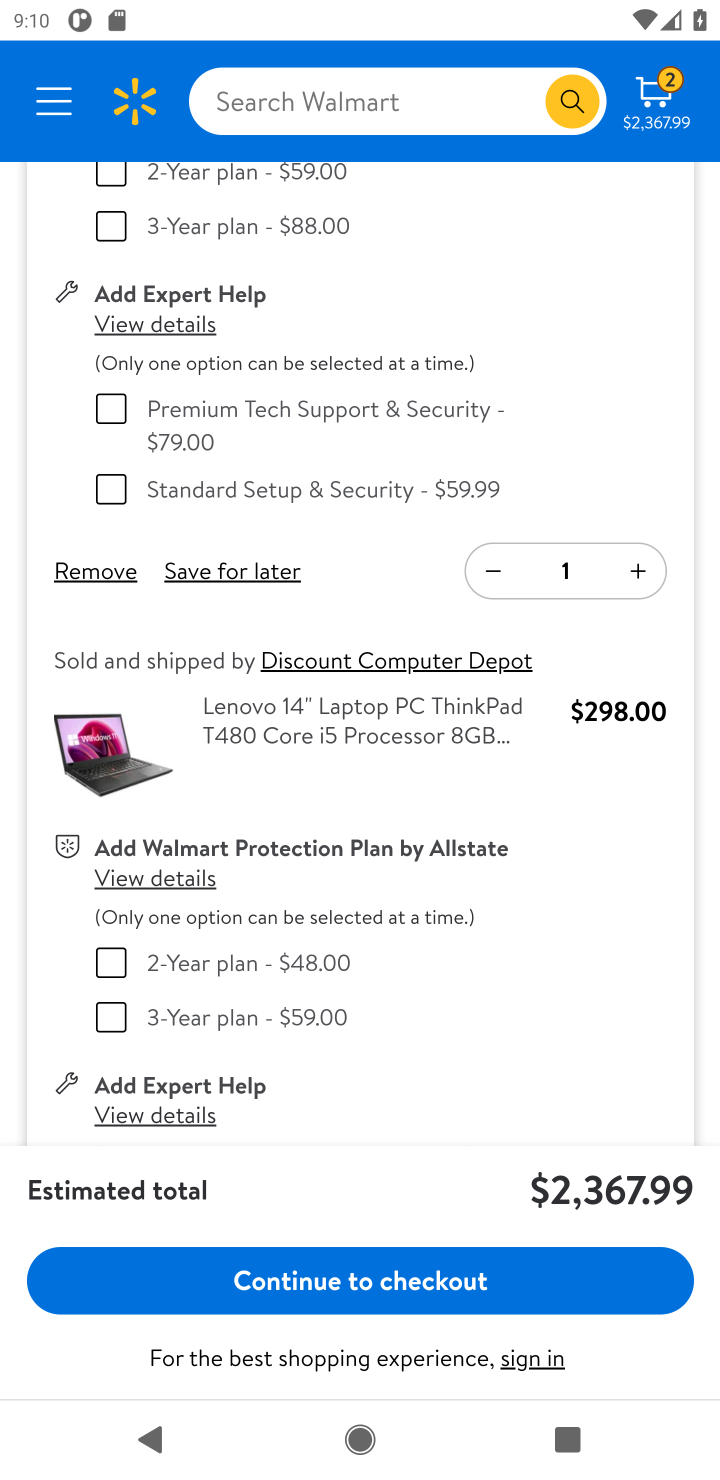
Step 31: click (132, 570)
Your task to perform on an android device: Clear all items from cart on walmart.com. Image 32: 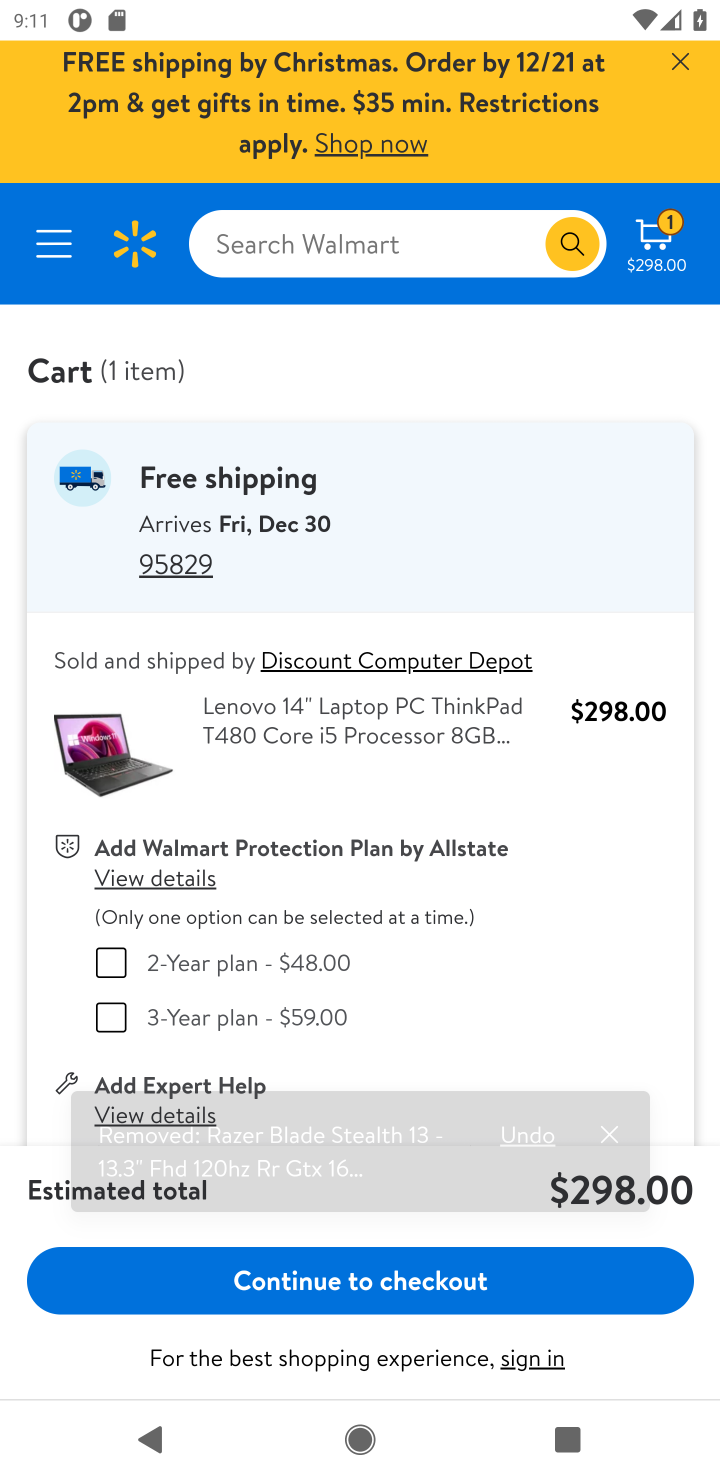
Step 32: click (609, 1138)
Your task to perform on an android device: Clear all items from cart on walmart.com. Image 33: 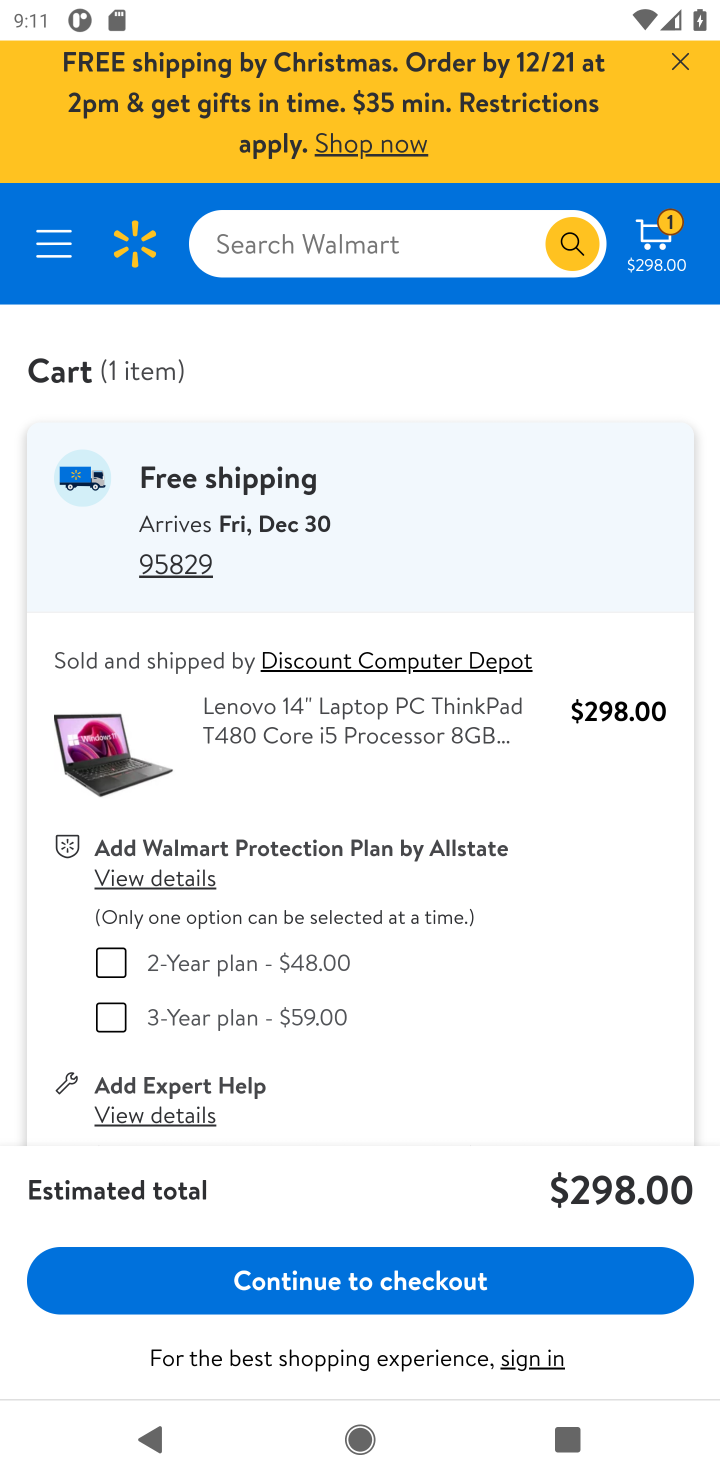
Step 33: drag from (379, 1056) to (442, 673)
Your task to perform on an android device: Clear all items from cart on walmart.com. Image 34: 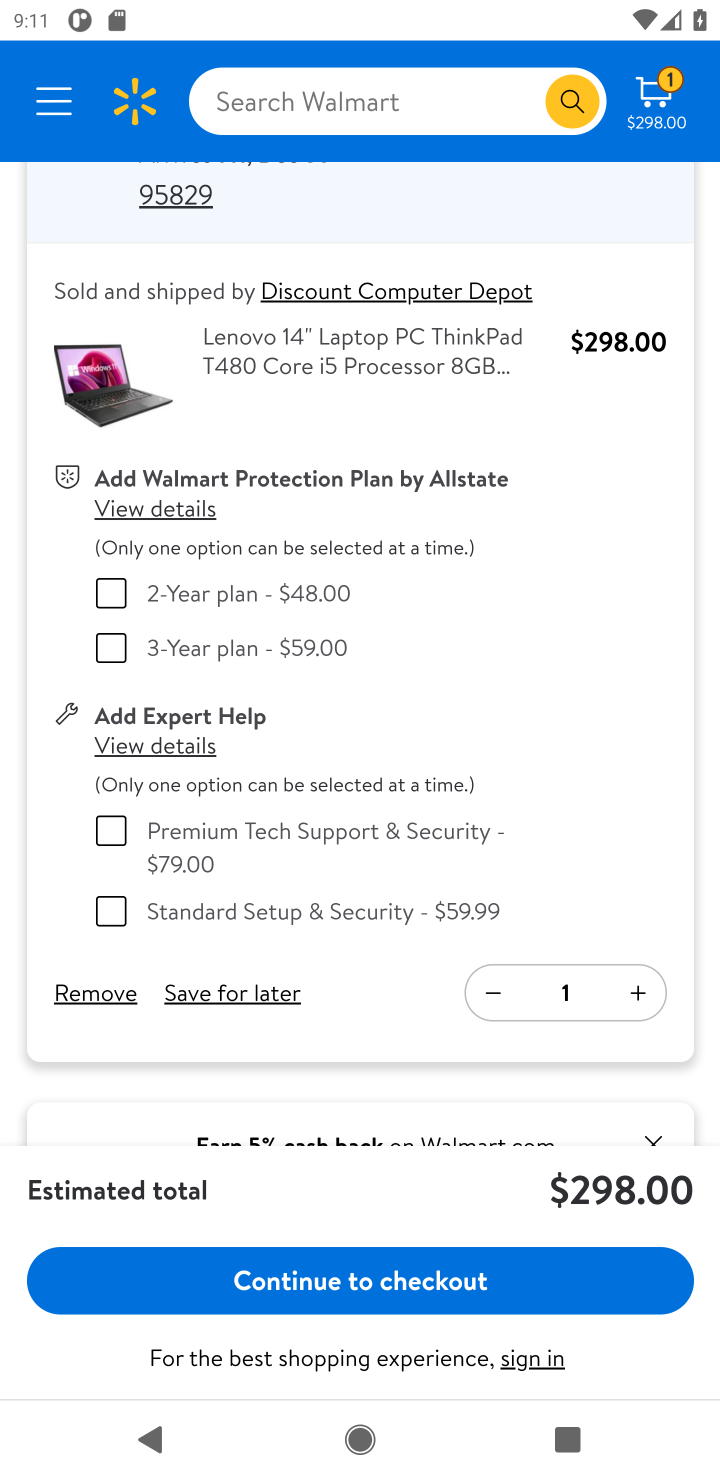
Step 34: click (107, 1011)
Your task to perform on an android device: Clear all items from cart on walmart.com. Image 35: 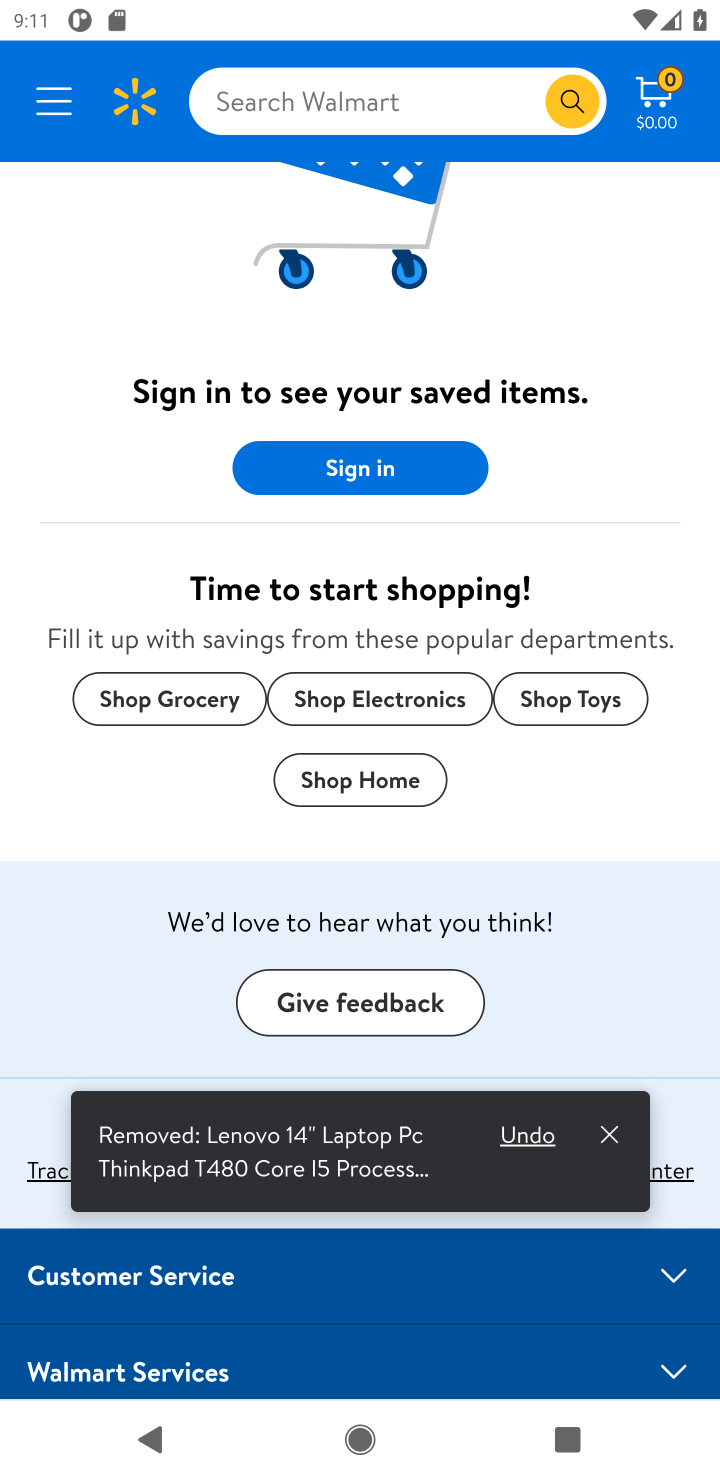
Step 35: task complete